Your task to perform on an android device: What is the capital of Sweden? Image 0: 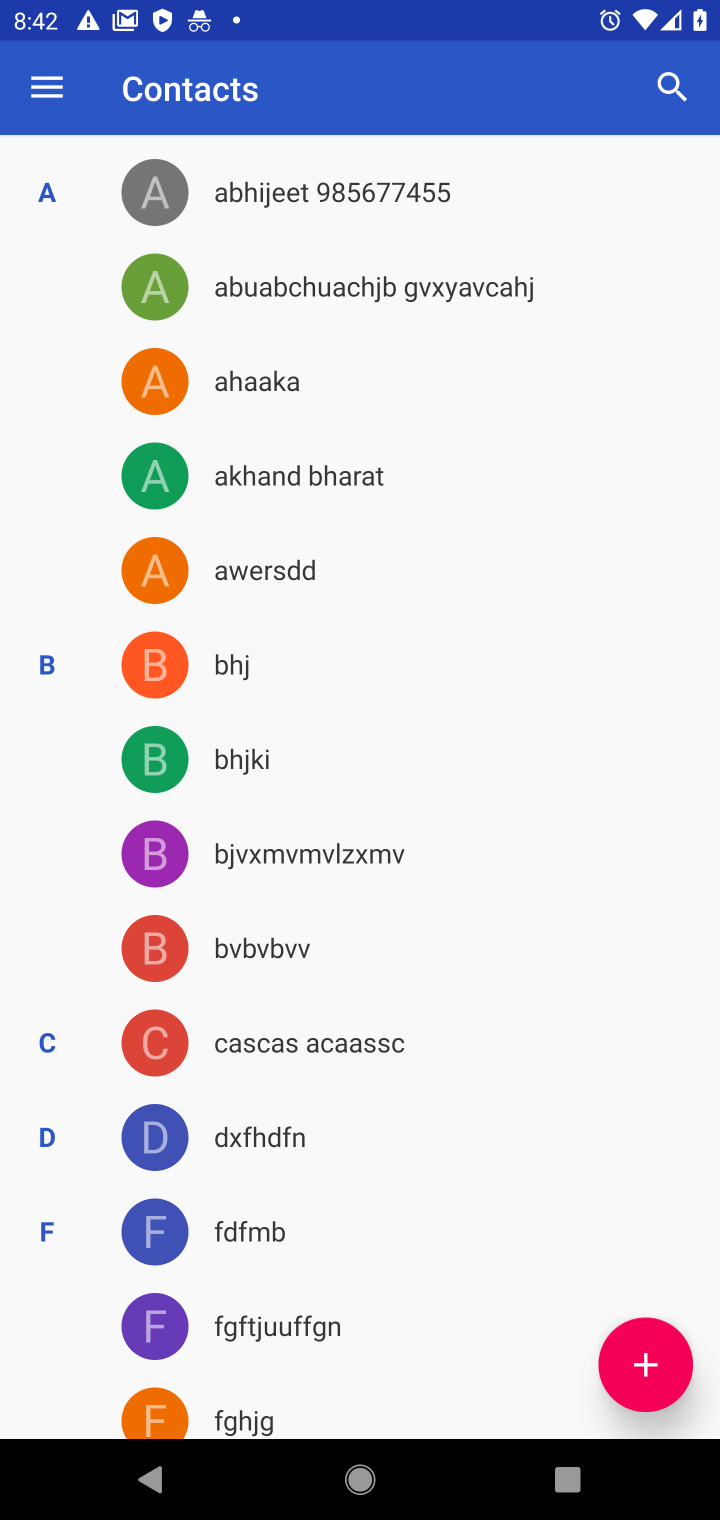
Step 0: press home button
Your task to perform on an android device: What is the capital of Sweden? Image 1: 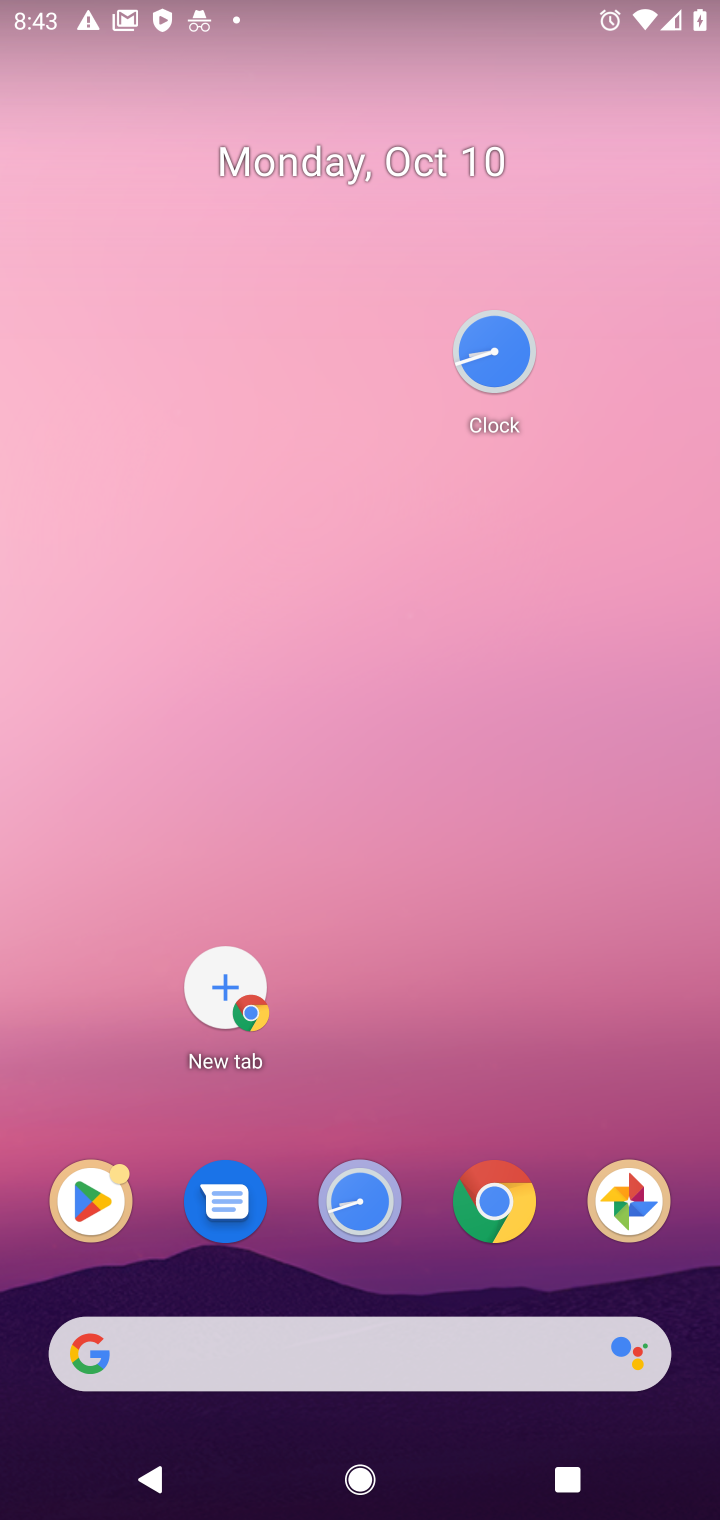
Step 1: click (499, 1223)
Your task to perform on an android device: What is the capital of Sweden? Image 2: 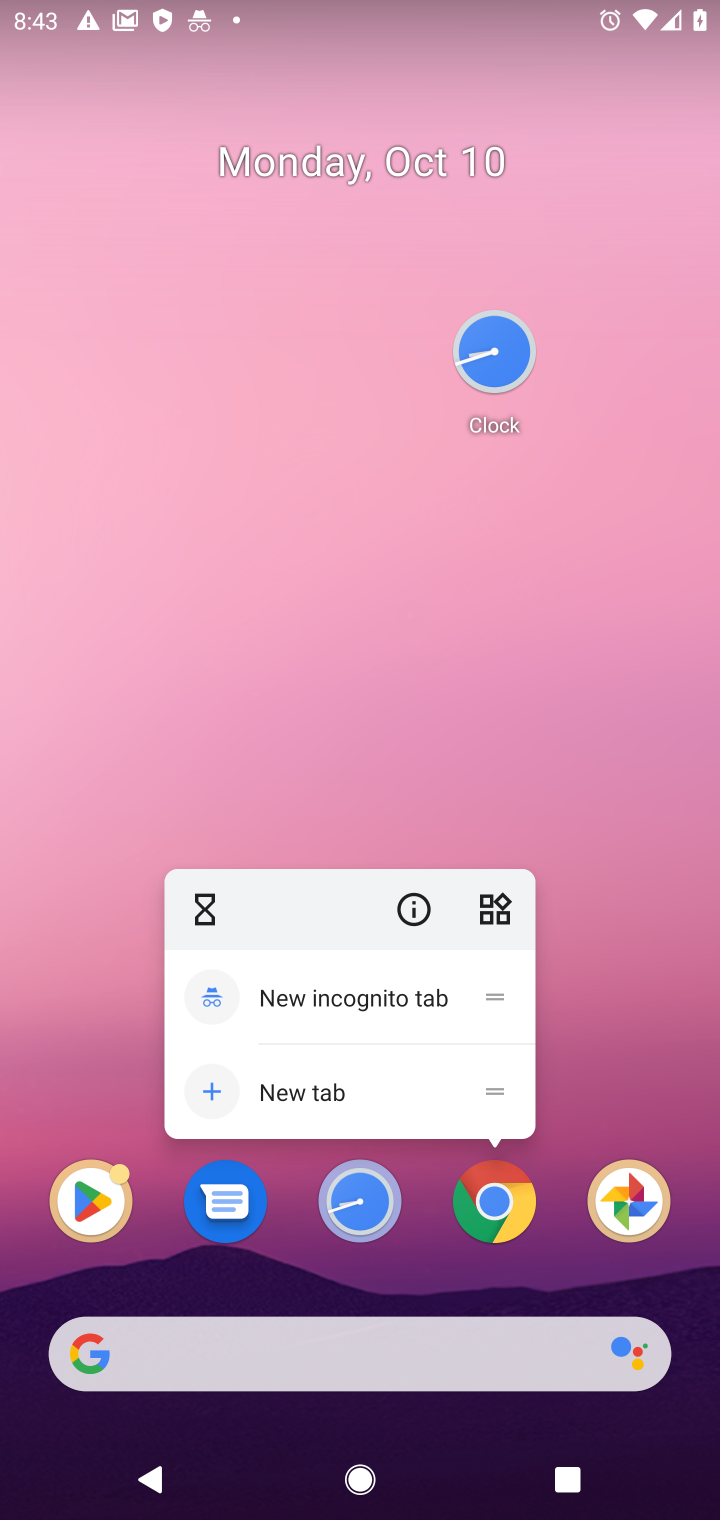
Step 2: click (501, 1198)
Your task to perform on an android device: What is the capital of Sweden? Image 3: 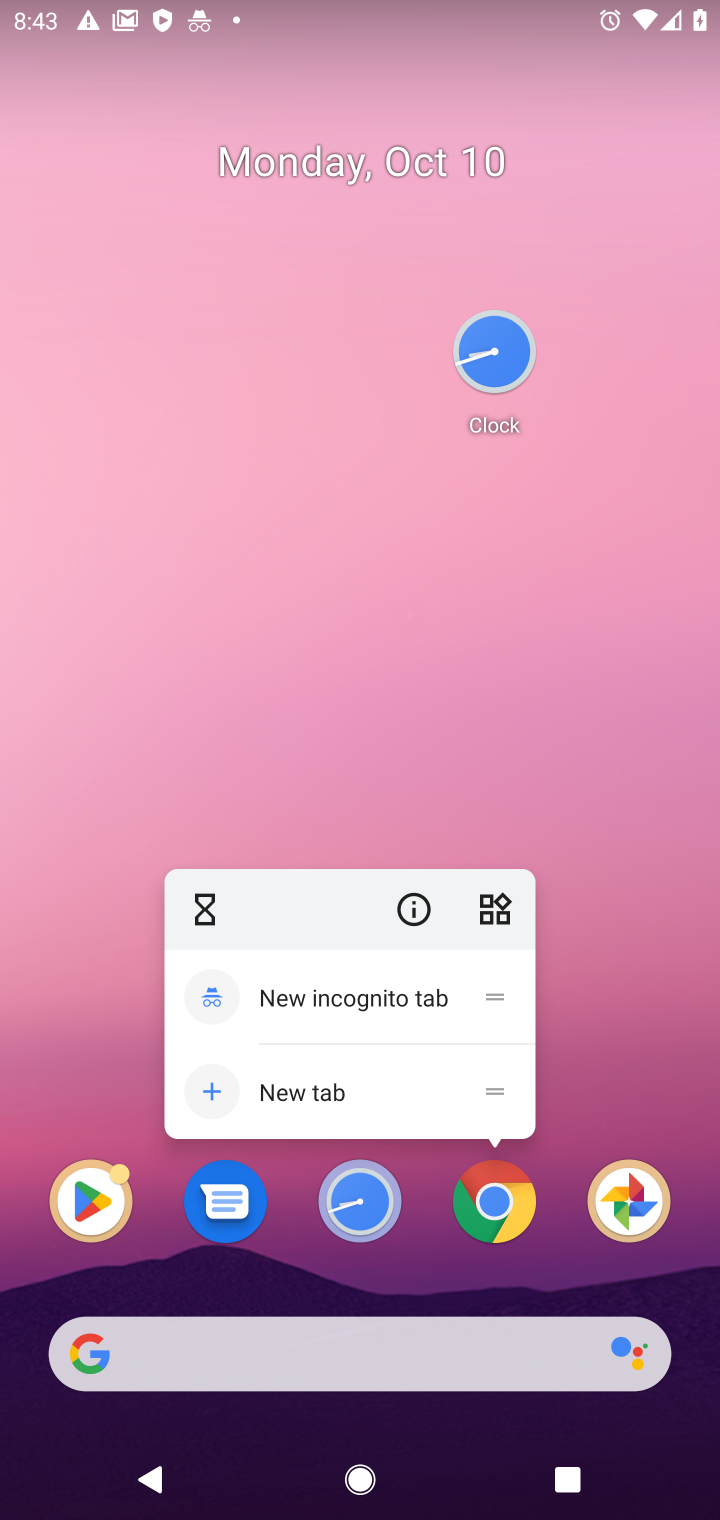
Step 3: click (491, 1198)
Your task to perform on an android device: What is the capital of Sweden? Image 4: 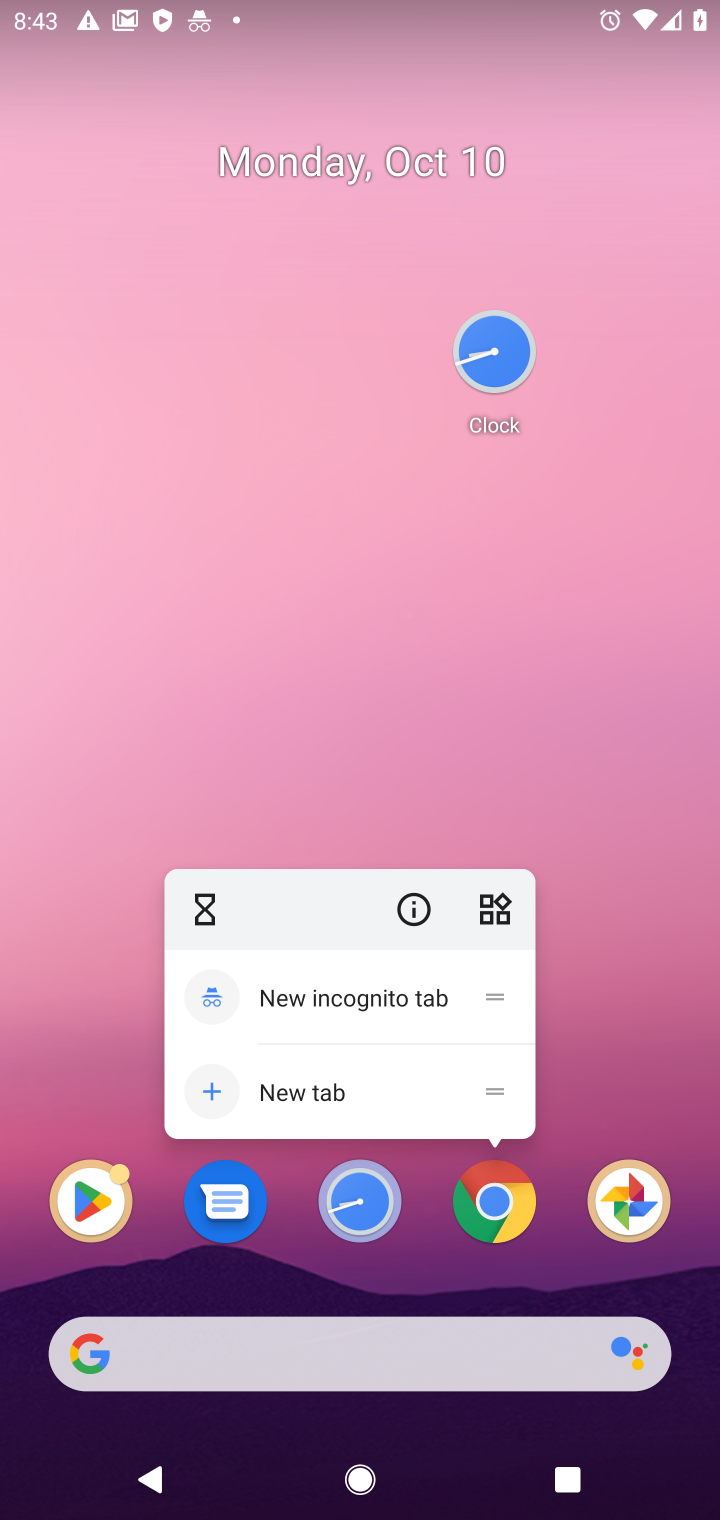
Step 4: click (373, 1107)
Your task to perform on an android device: What is the capital of Sweden? Image 5: 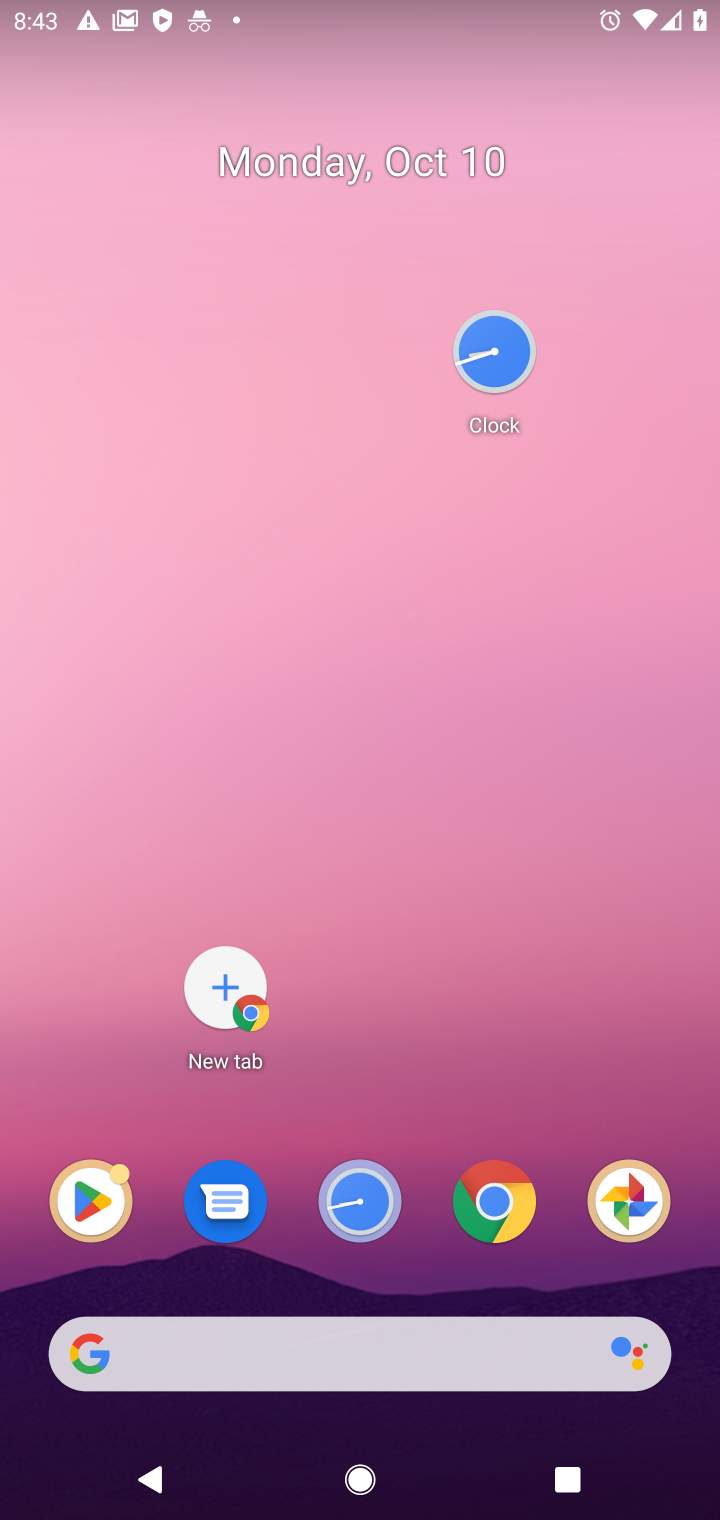
Step 5: click (499, 1214)
Your task to perform on an android device: What is the capital of Sweden? Image 6: 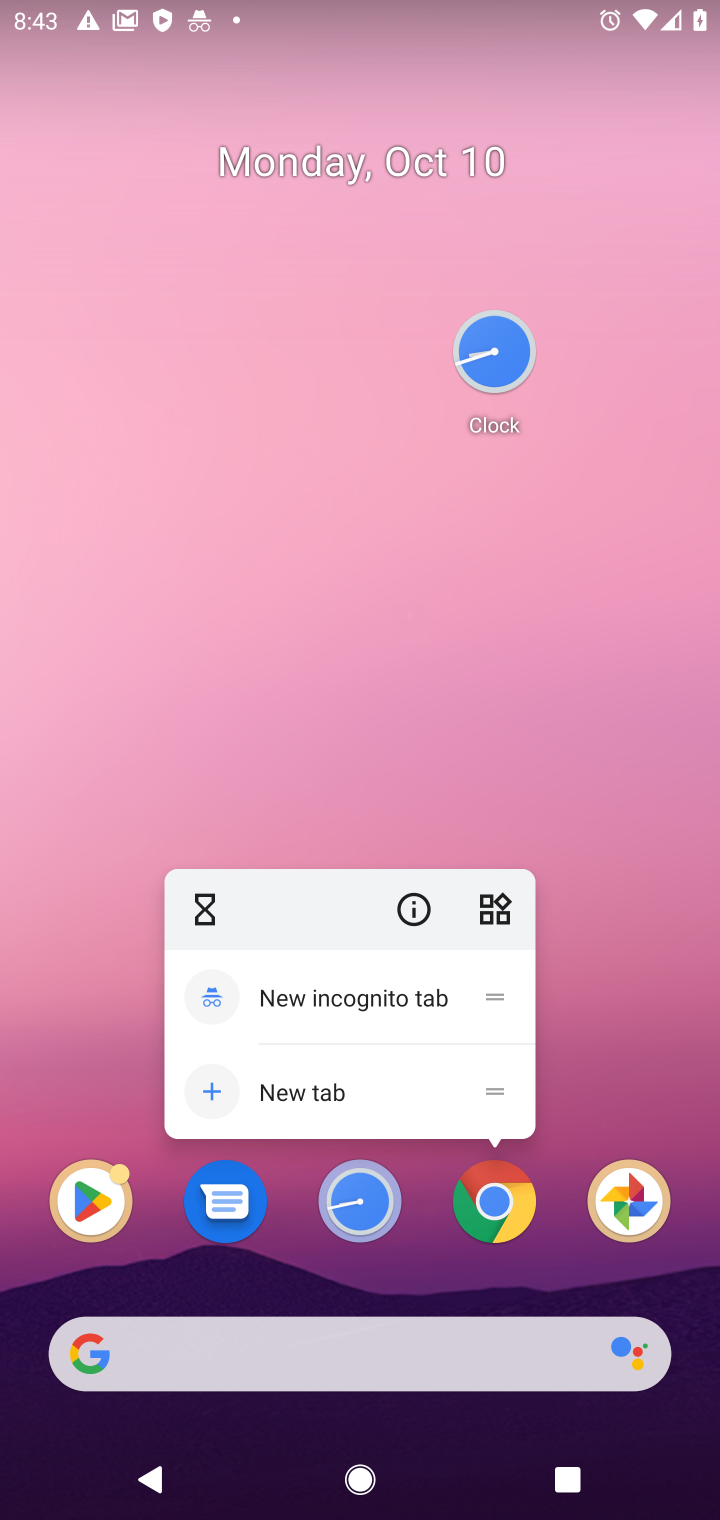
Step 6: click (487, 1193)
Your task to perform on an android device: What is the capital of Sweden? Image 7: 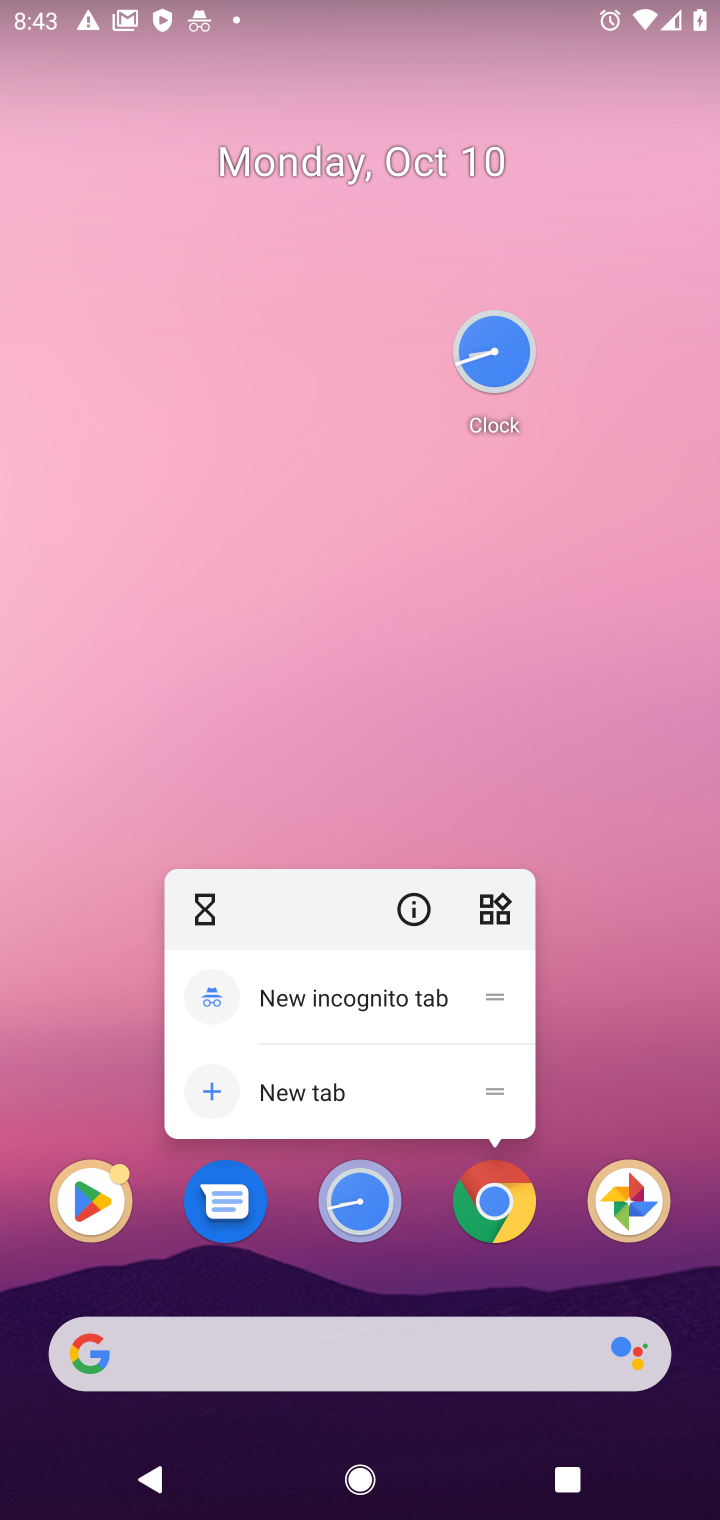
Step 7: click (322, 1097)
Your task to perform on an android device: What is the capital of Sweden? Image 8: 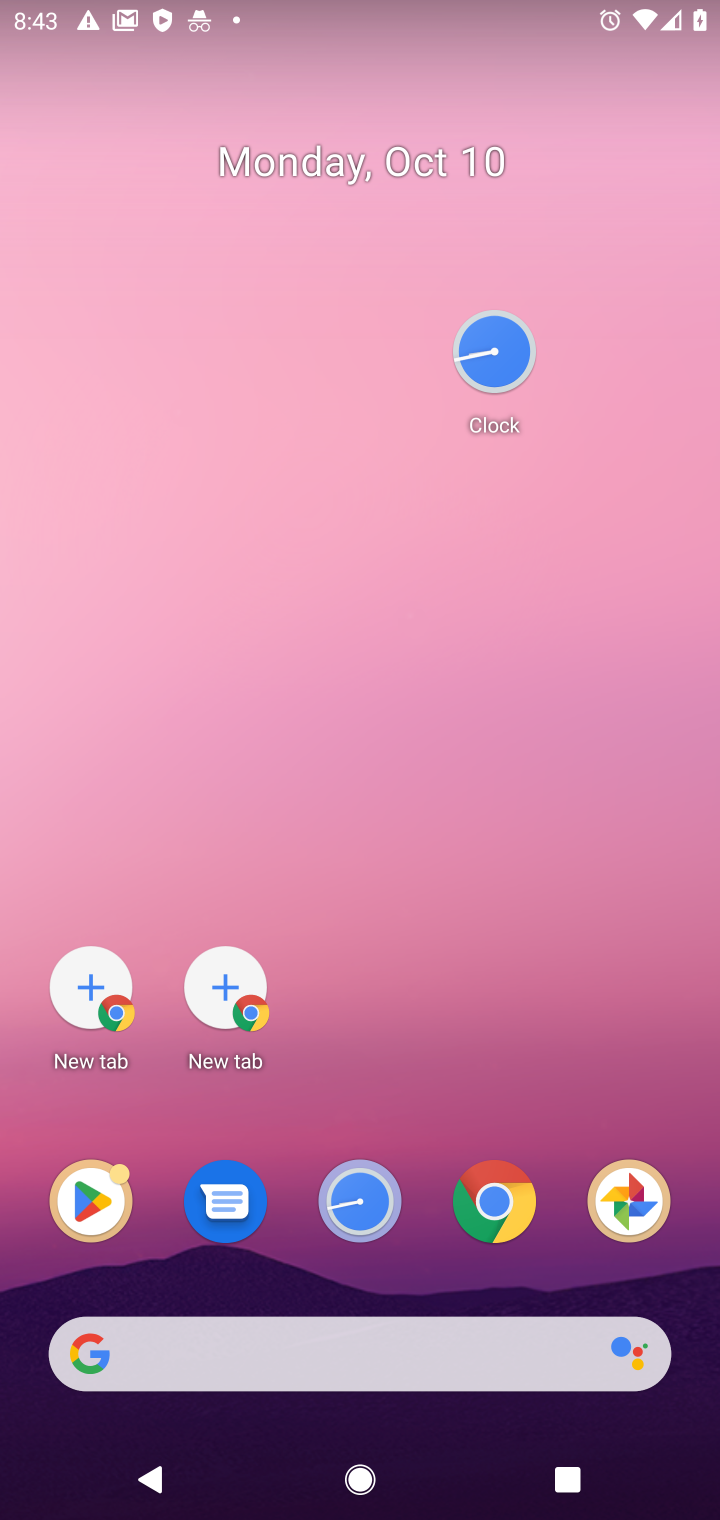
Step 8: click (127, 1005)
Your task to perform on an android device: What is the capital of Sweden? Image 9: 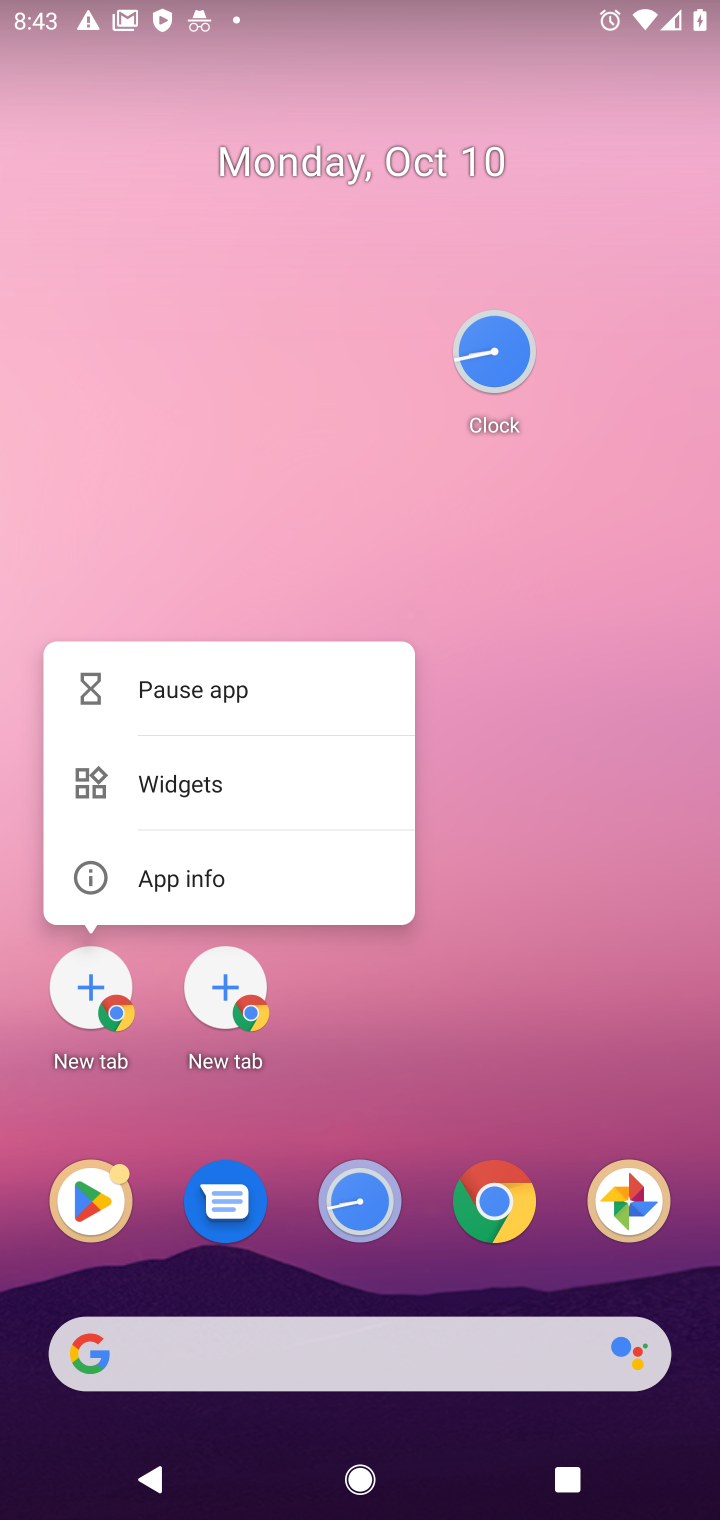
Step 9: drag from (316, 1347) to (473, 2)
Your task to perform on an android device: What is the capital of Sweden? Image 10: 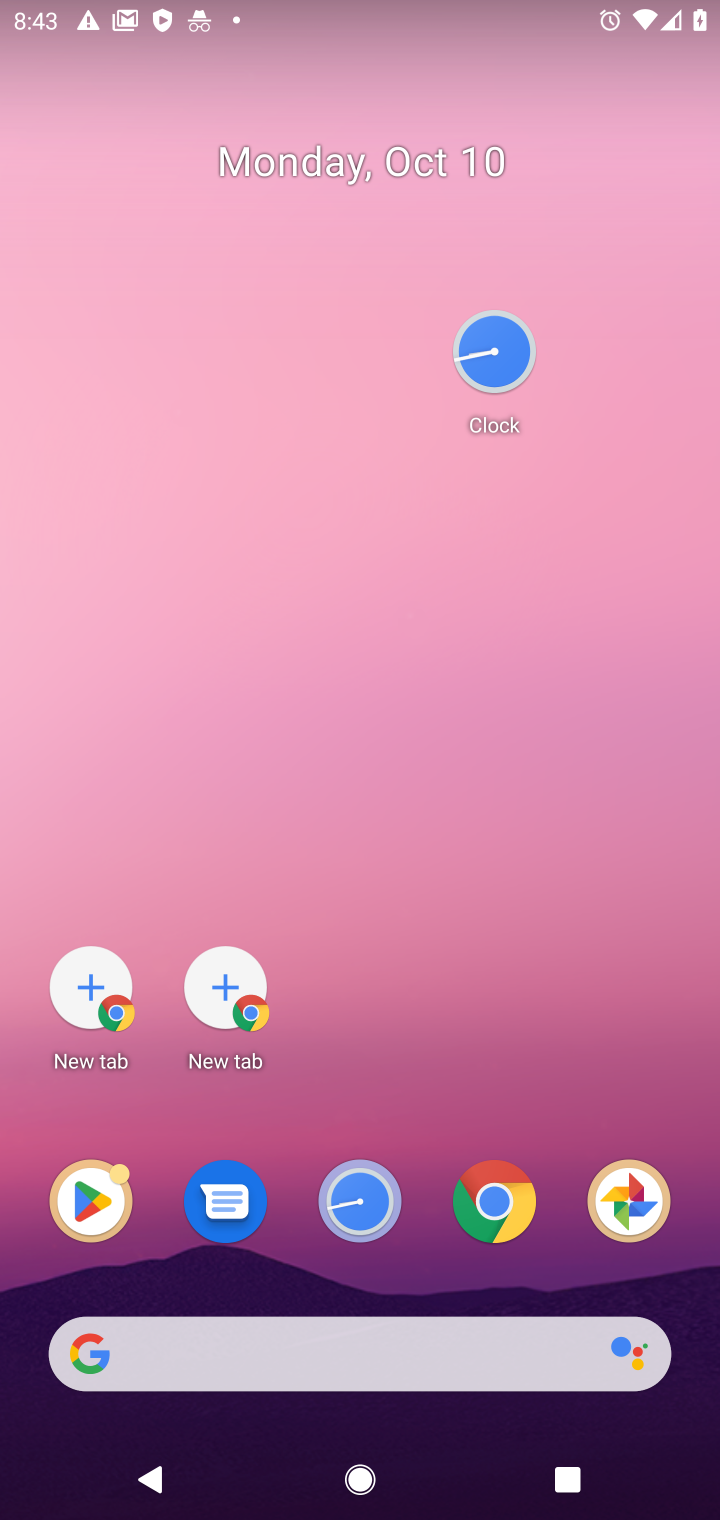
Step 10: drag from (380, 226) to (388, 60)
Your task to perform on an android device: What is the capital of Sweden? Image 11: 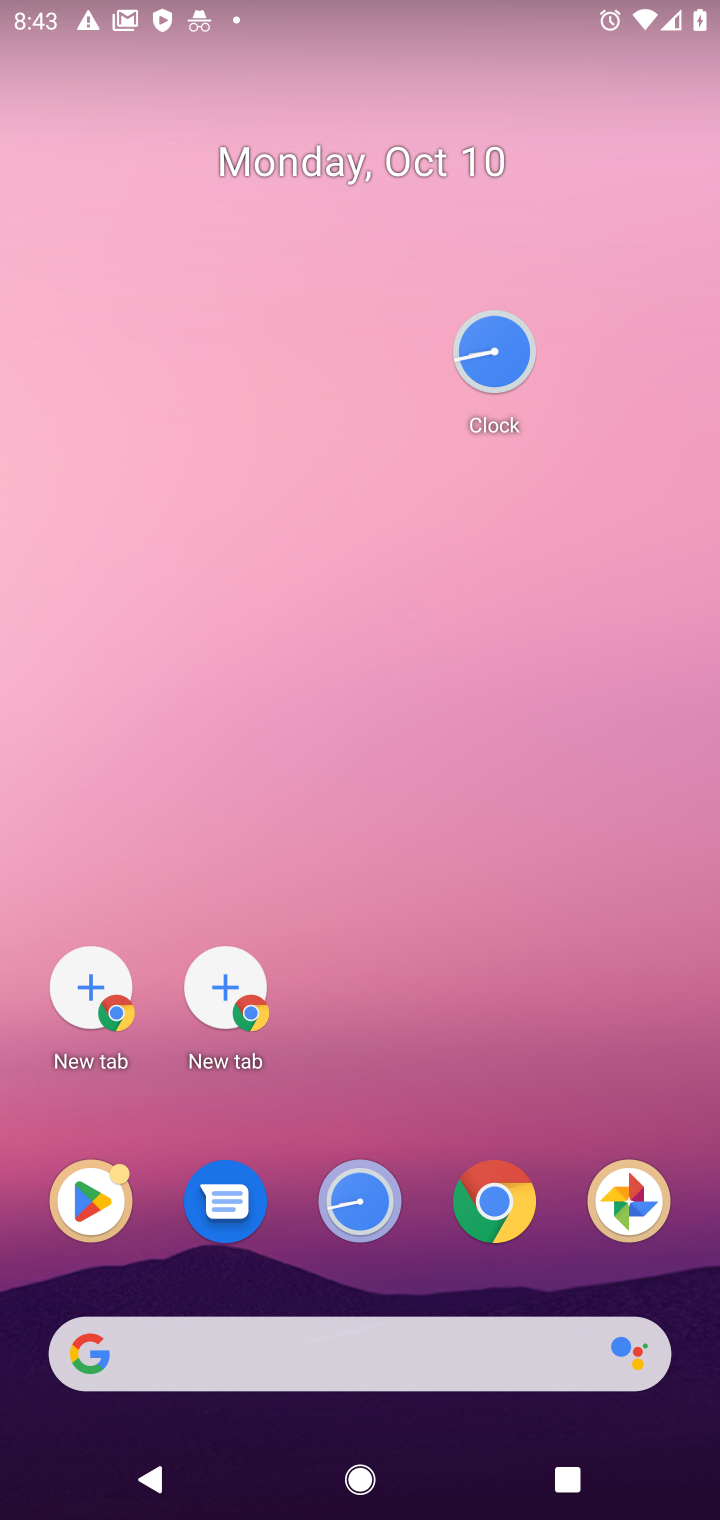
Step 11: drag from (286, 1271) to (378, 79)
Your task to perform on an android device: What is the capital of Sweden? Image 12: 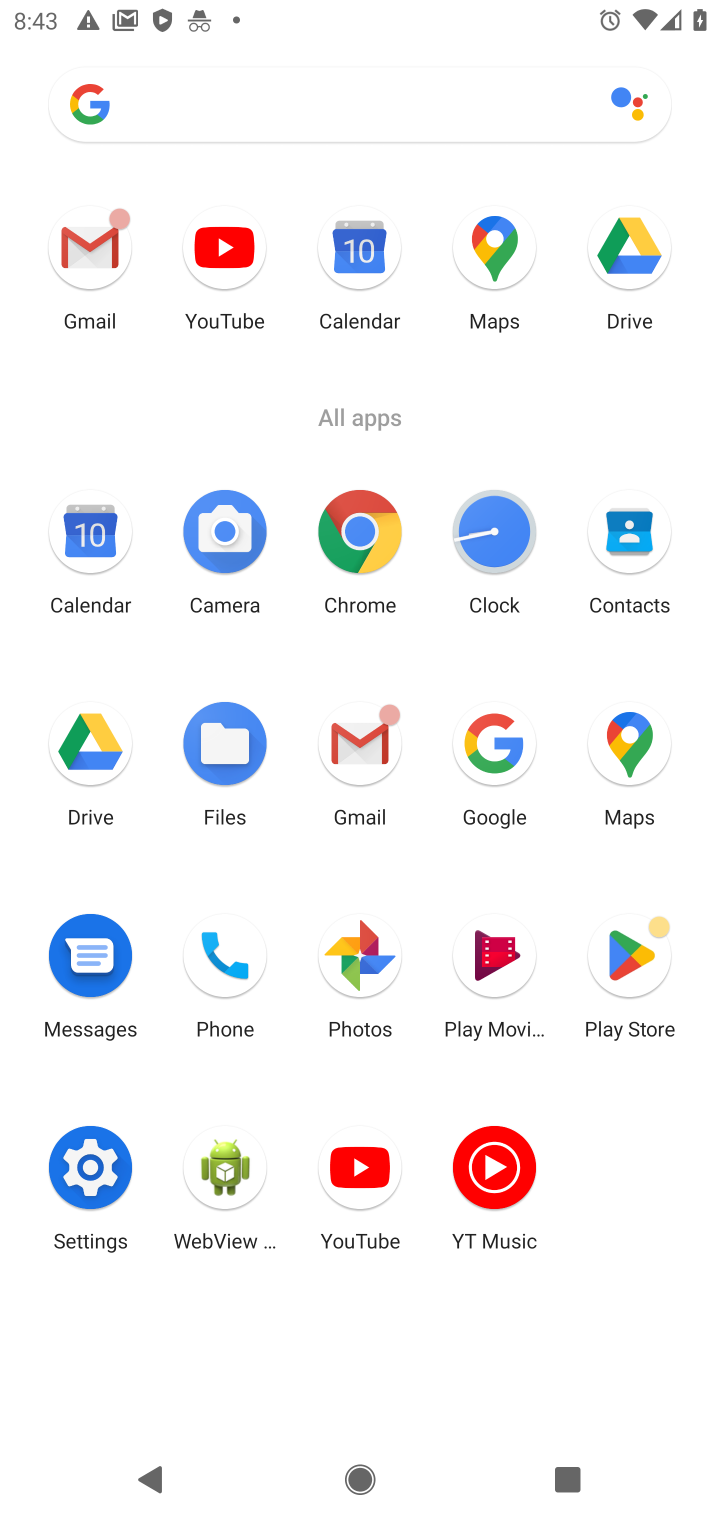
Step 12: click (351, 543)
Your task to perform on an android device: What is the capital of Sweden? Image 13: 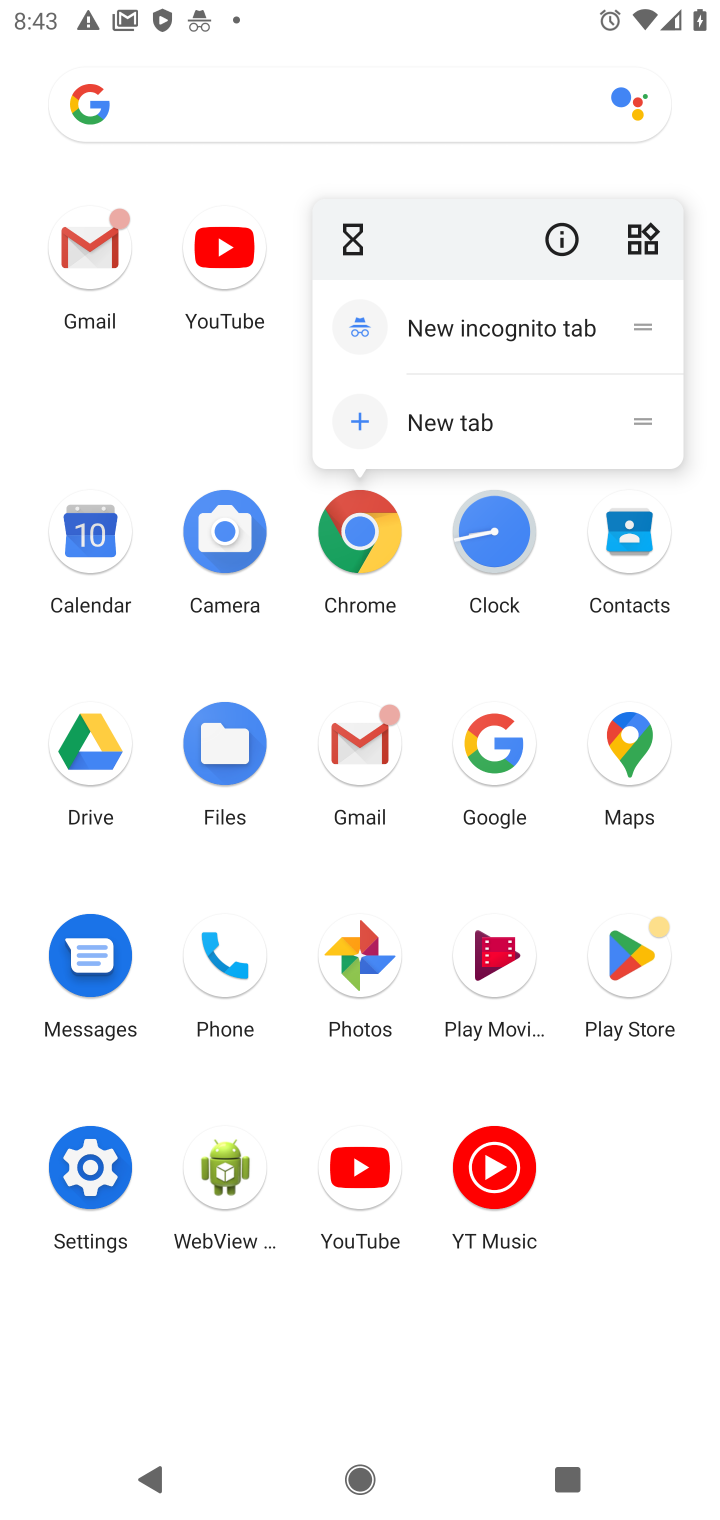
Step 13: click (383, 538)
Your task to perform on an android device: What is the capital of Sweden? Image 14: 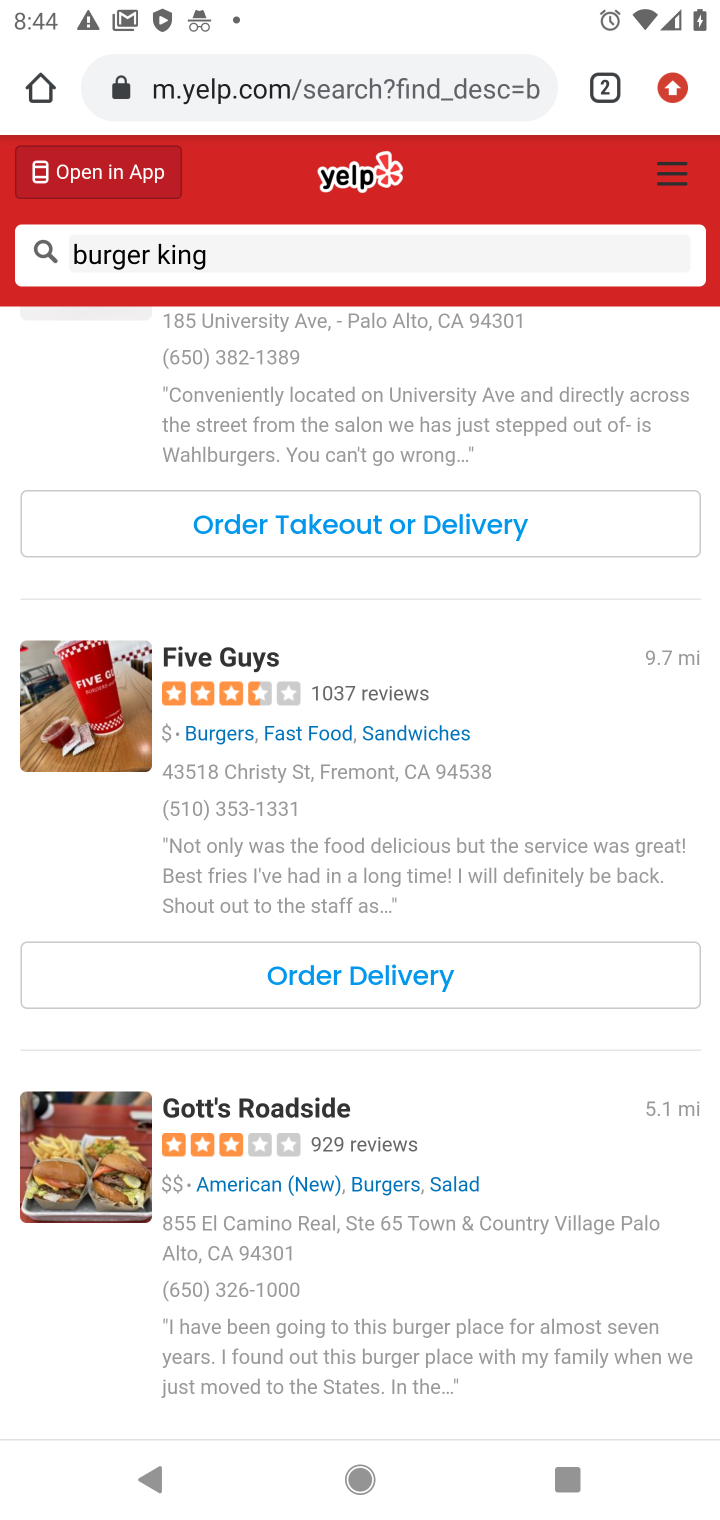
Step 14: click (273, 76)
Your task to perform on an android device: What is the capital of Sweden? Image 15: 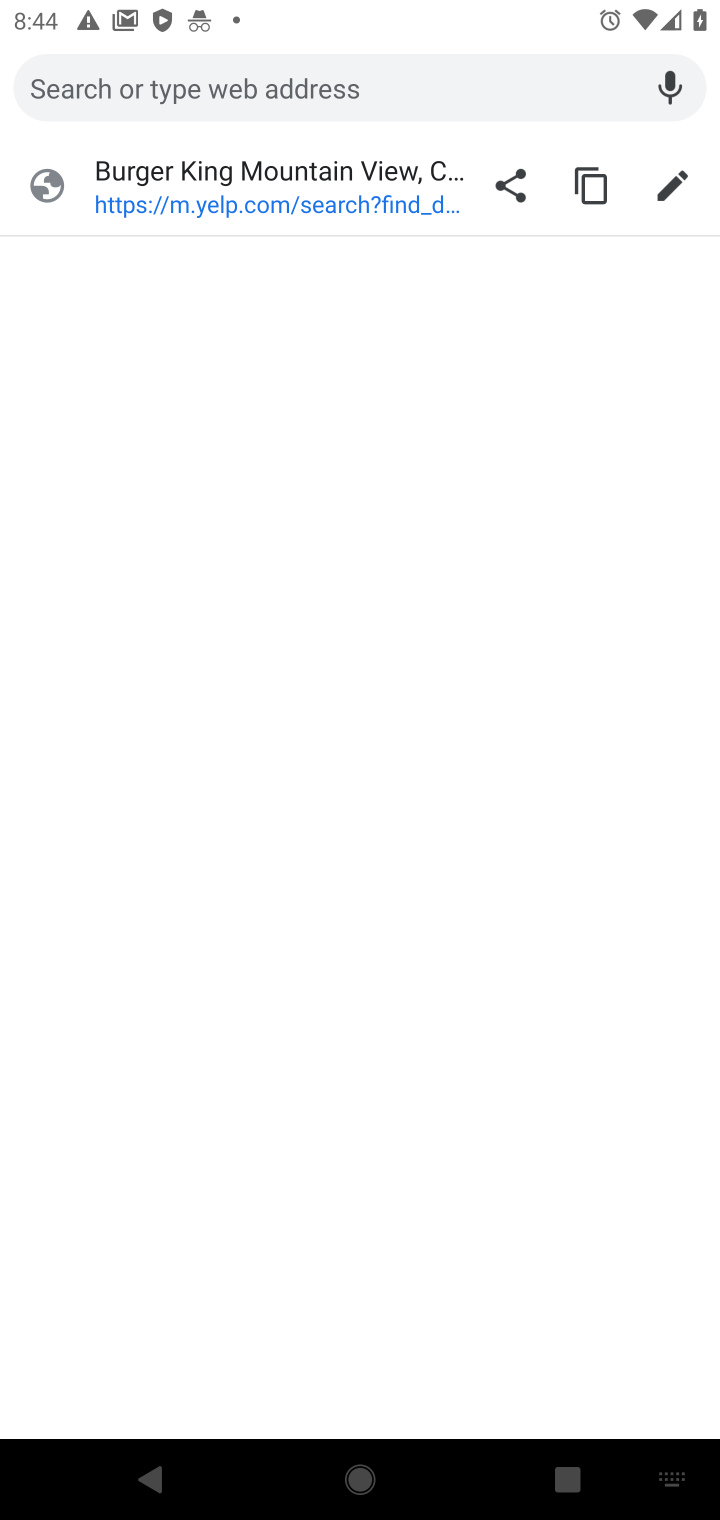
Step 15: type "What is the capital of Sweden?"
Your task to perform on an android device: What is the capital of Sweden? Image 16: 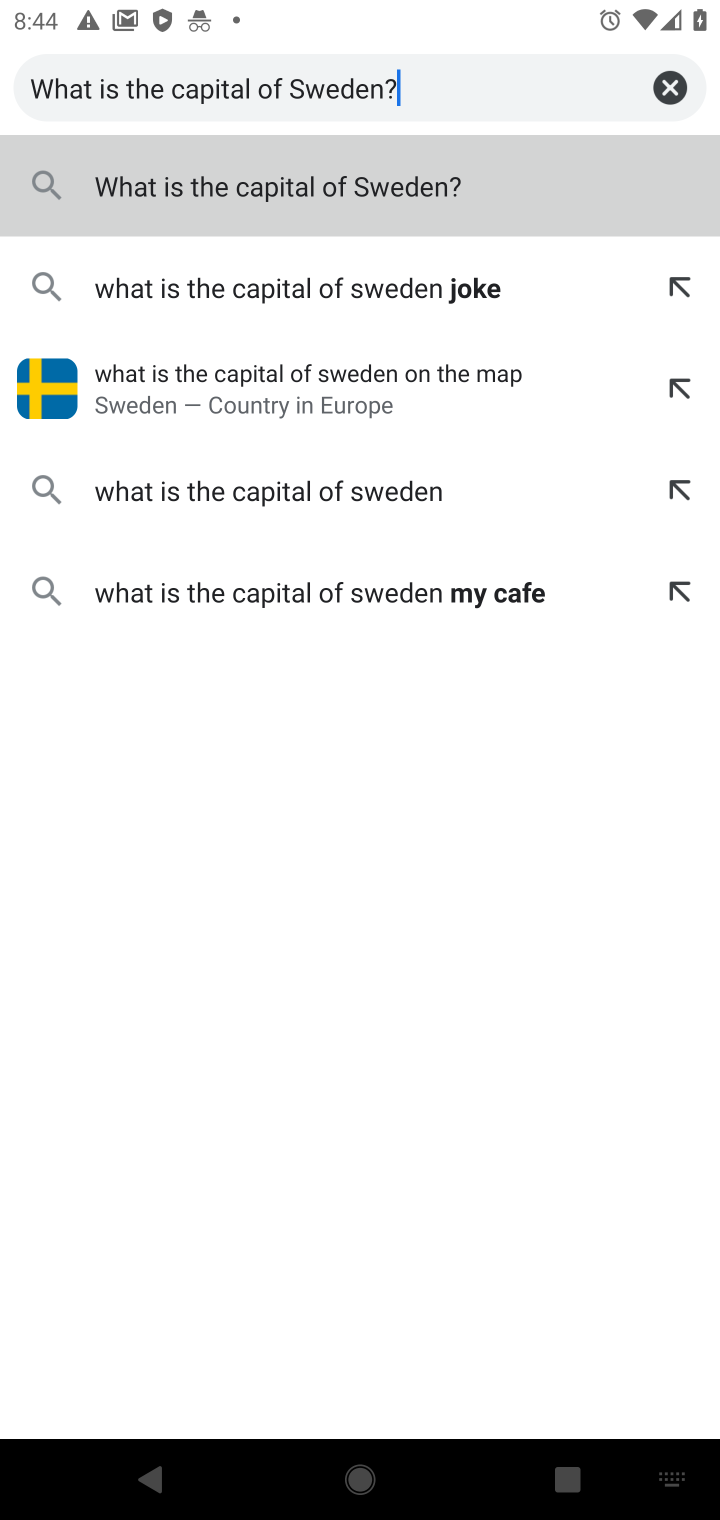
Step 16: type ""
Your task to perform on an android device: What is the capital of Sweden? Image 17: 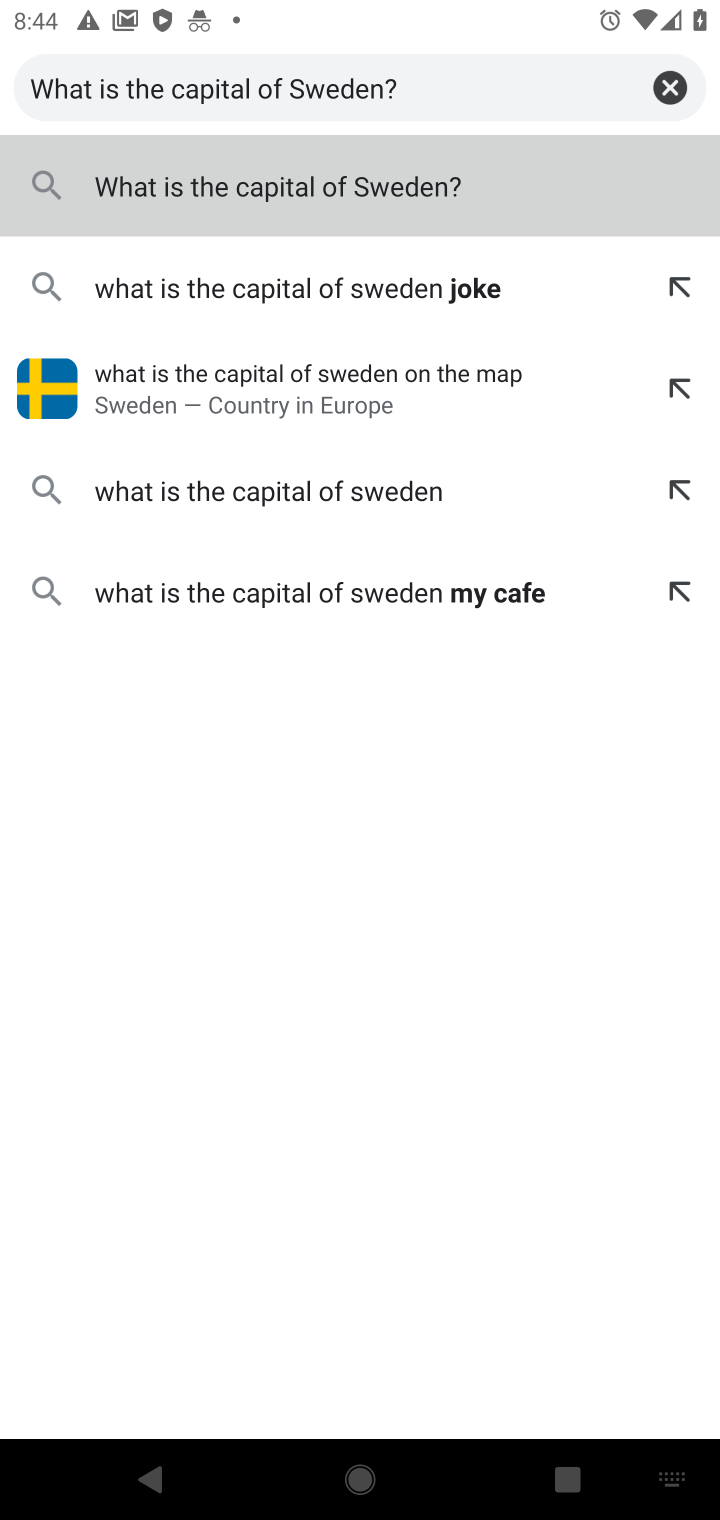
Step 17: click (320, 170)
Your task to perform on an android device: What is the capital of Sweden? Image 18: 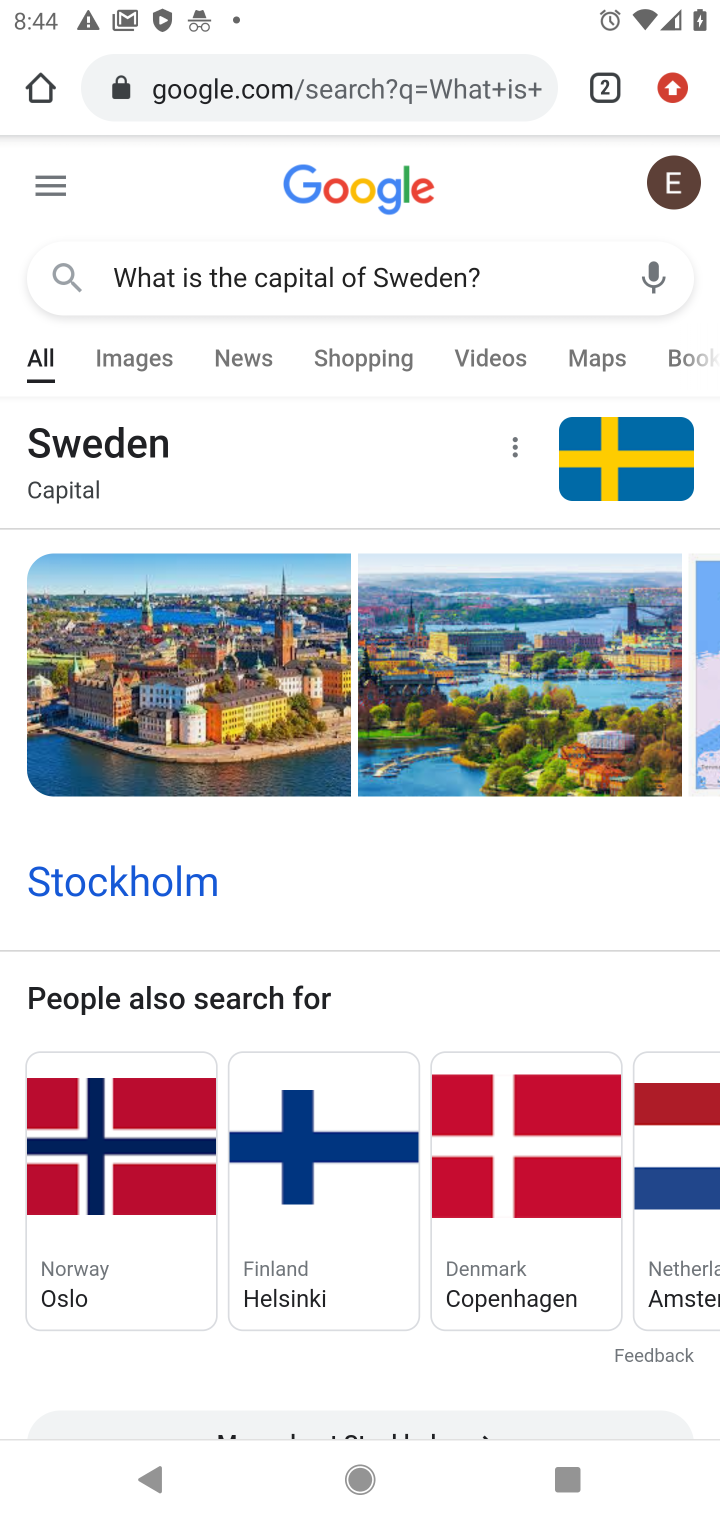
Step 18: drag from (186, 1185) to (248, 562)
Your task to perform on an android device: What is the capital of Sweden? Image 19: 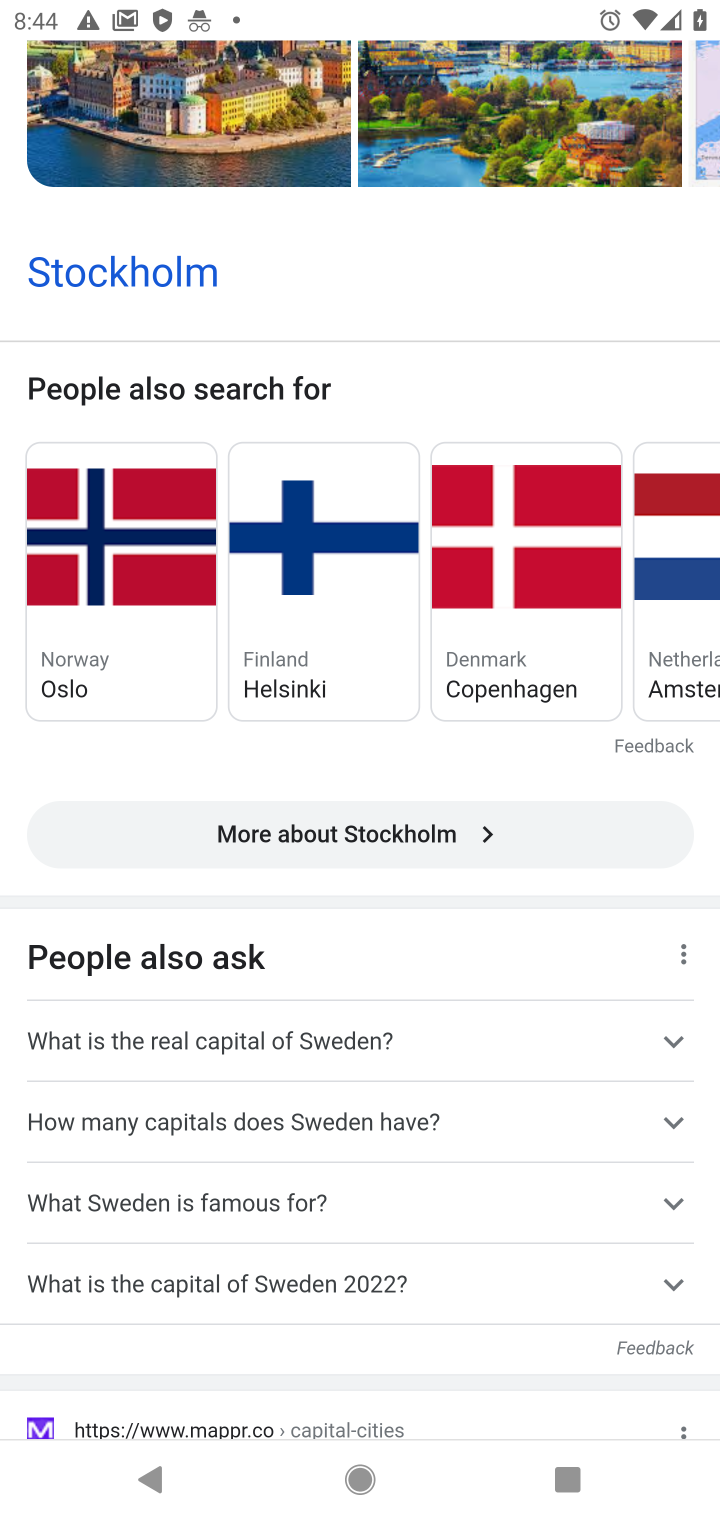
Step 19: drag from (303, 689) to (341, 323)
Your task to perform on an android device: What is the capital of Sweden? Image 20: 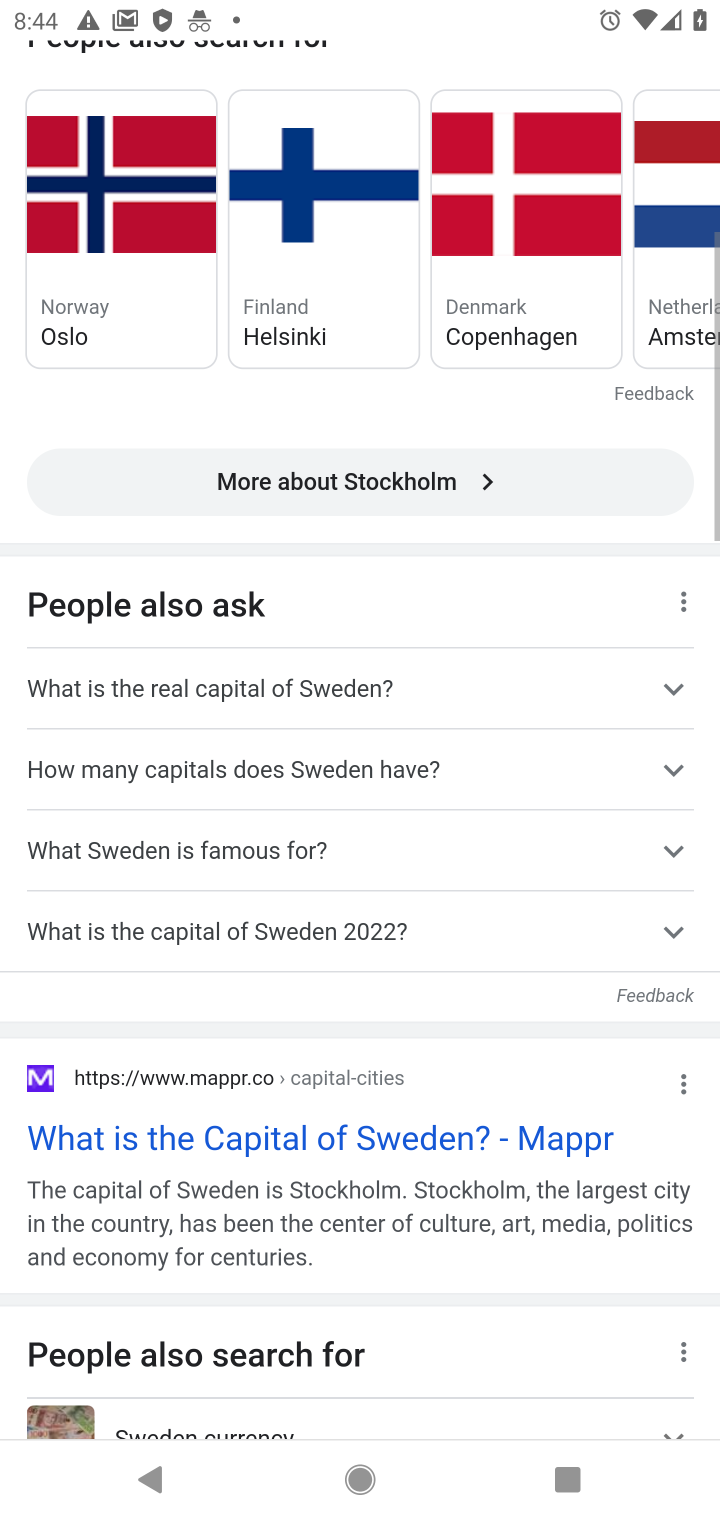
Step 20: drag from (333, 641) to (383, 371)
Your task to perform on an android device: What is the capital of Sweden? Image 21: 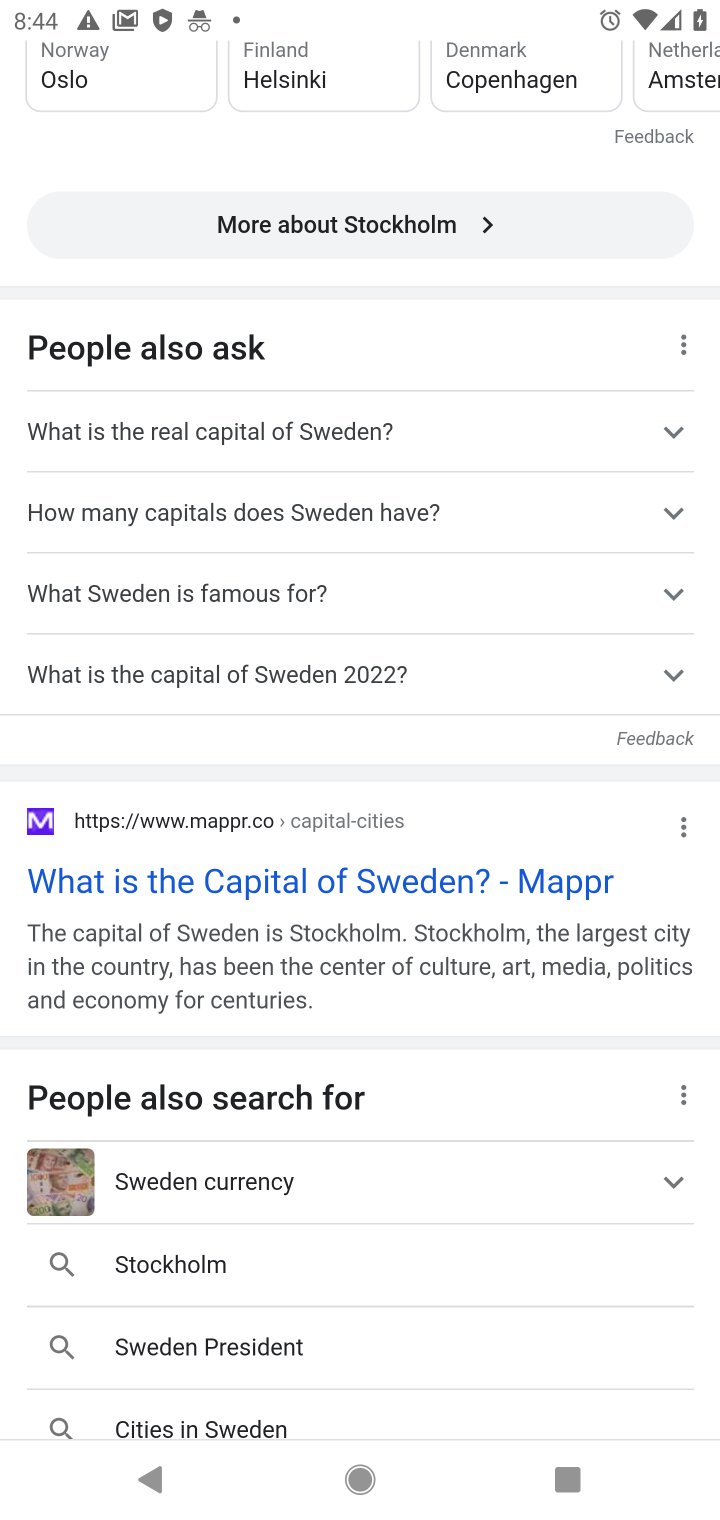
Step 21: click (220, 899)
Your task to perform on an android device: What is the capital of Sweden? Image 22: 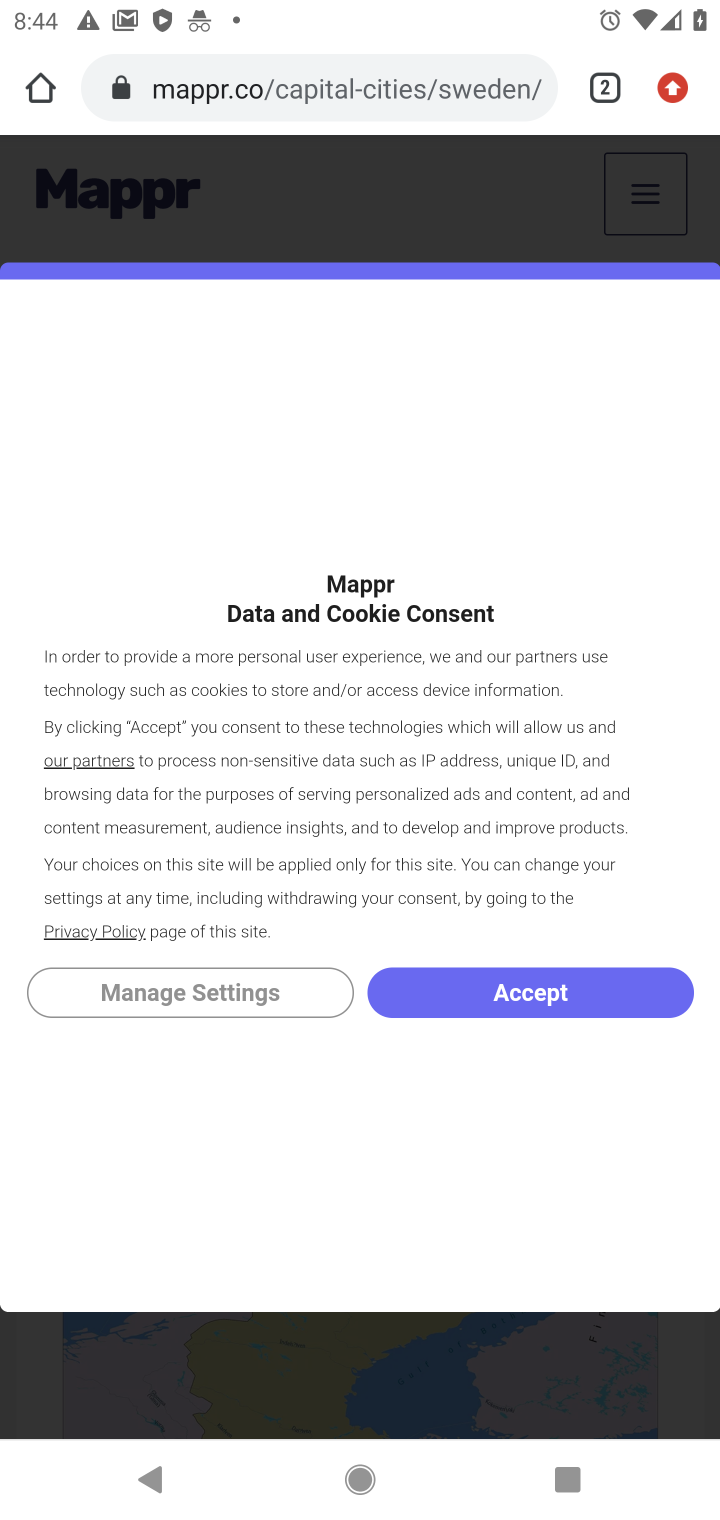
Step 22: click (498, 1000)
Your task to perform on an android device: What is the capital of Sweden? Image 23: 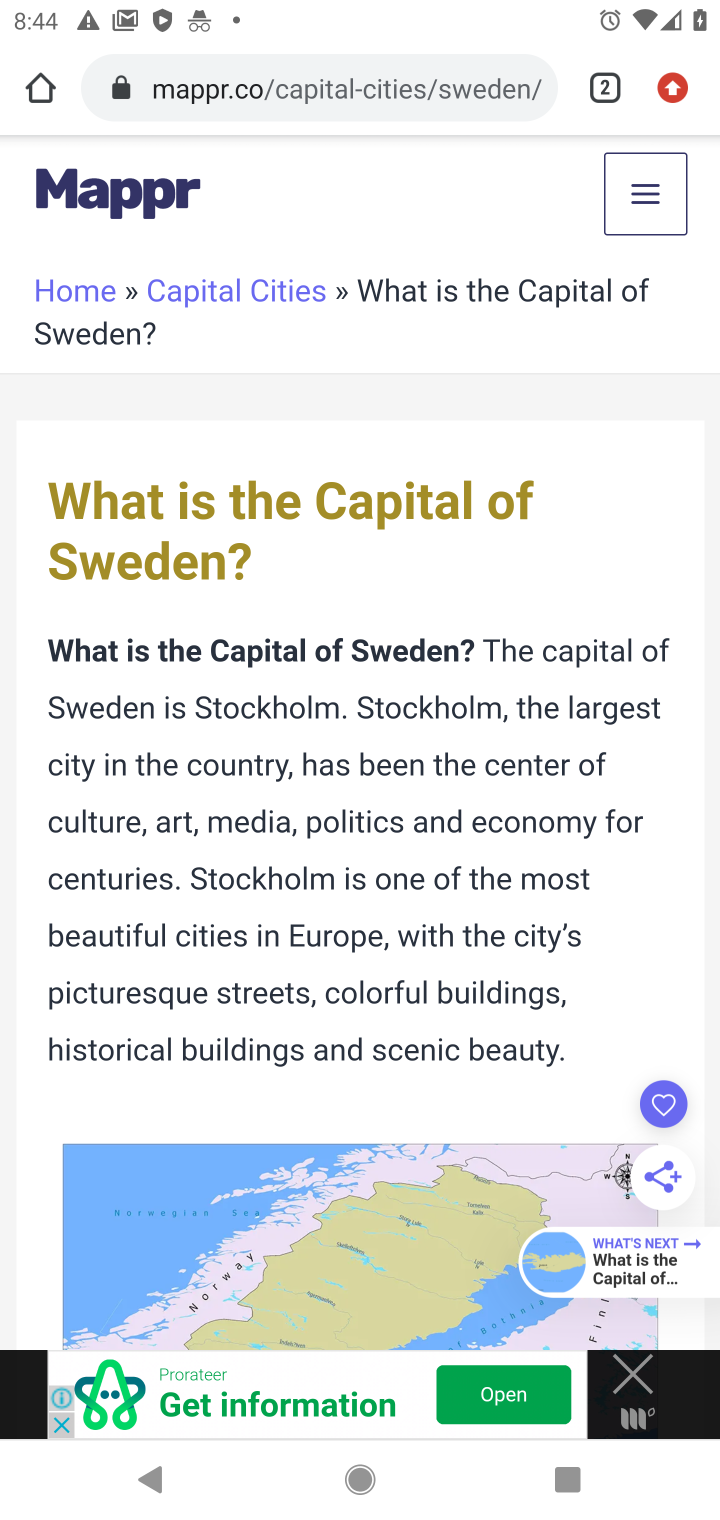
Step 23: drag from (474, 1204) to (544, 372)
Your task to perform on an android device: What is the capital of Sweden? Image 24: 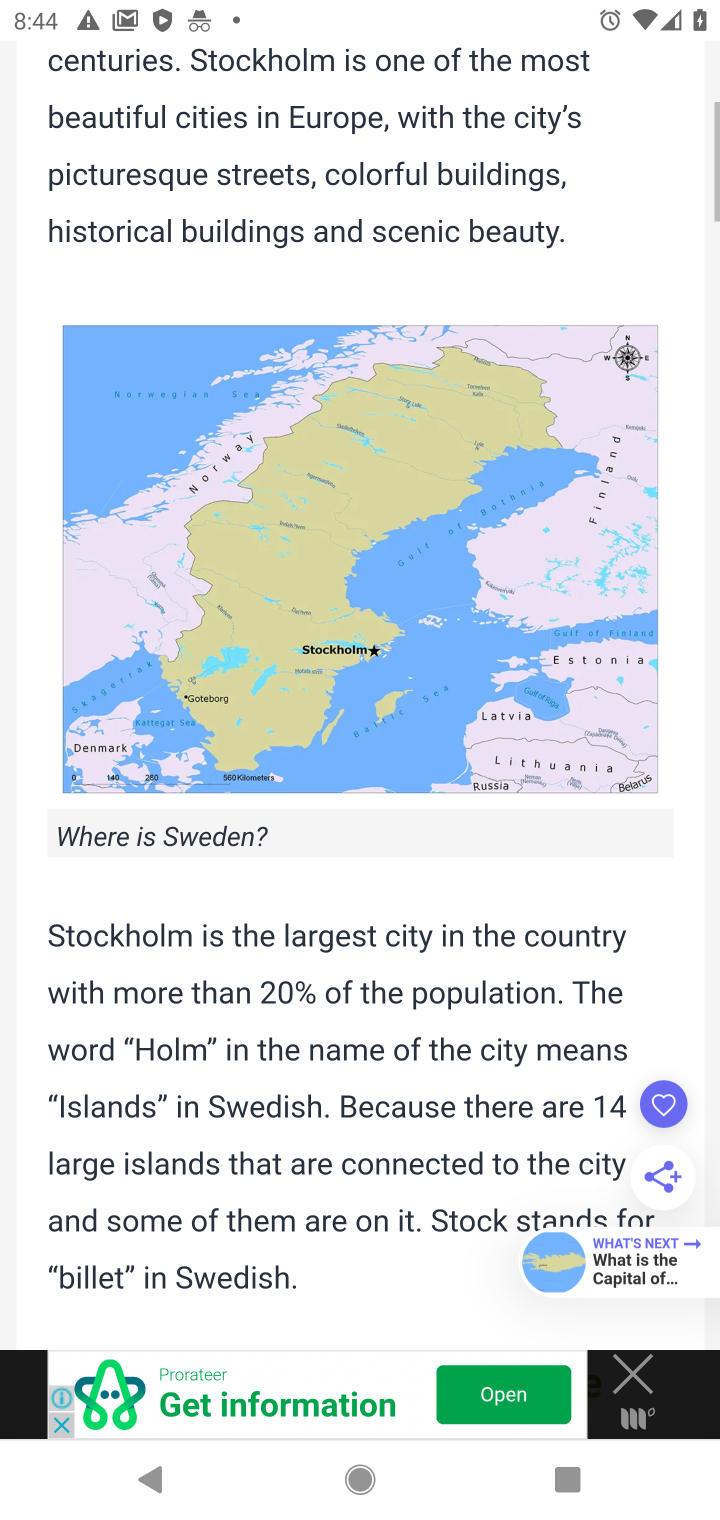
Step 24: drag from (411, 795) to (412, 265)
Your task to perform on an android device: What is the capital of Sweden? Image 25: 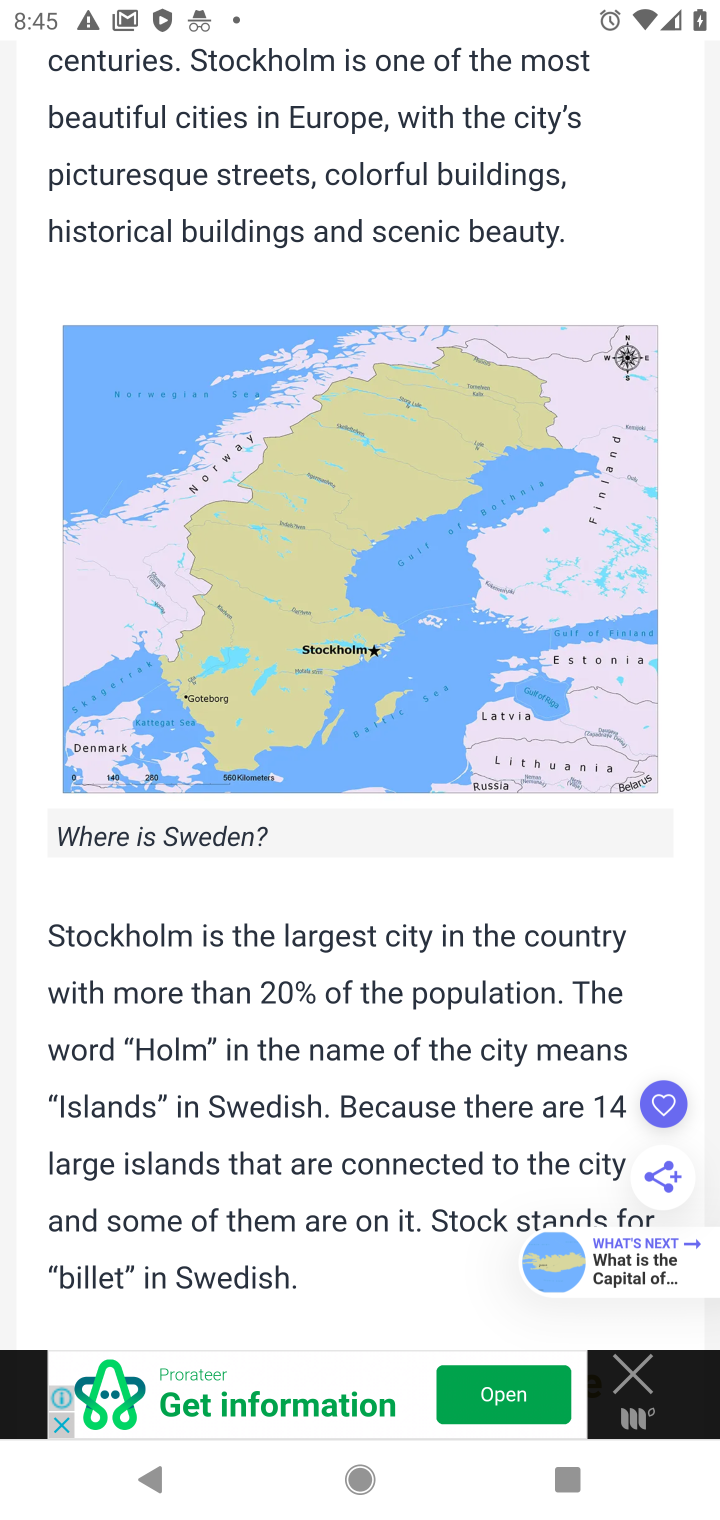
Step 25: drag from (467, 631) to (516, 386)
Your task to perform on an android device: What is the capital of Sweden? Image 26: 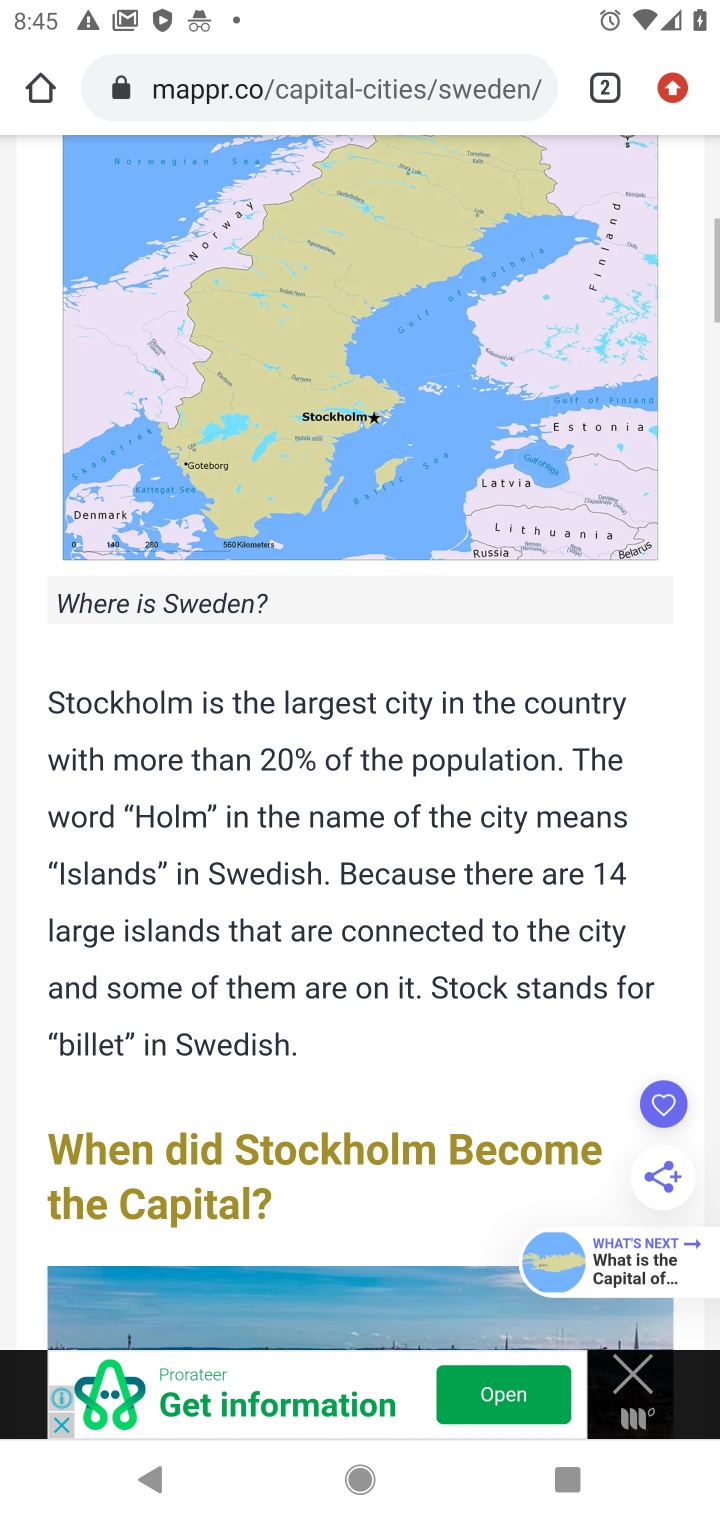
Step 26: drag from (468, 692) to (555, 412)
Your task to perform on an android device: What is the capital of Sweden? Image 27: 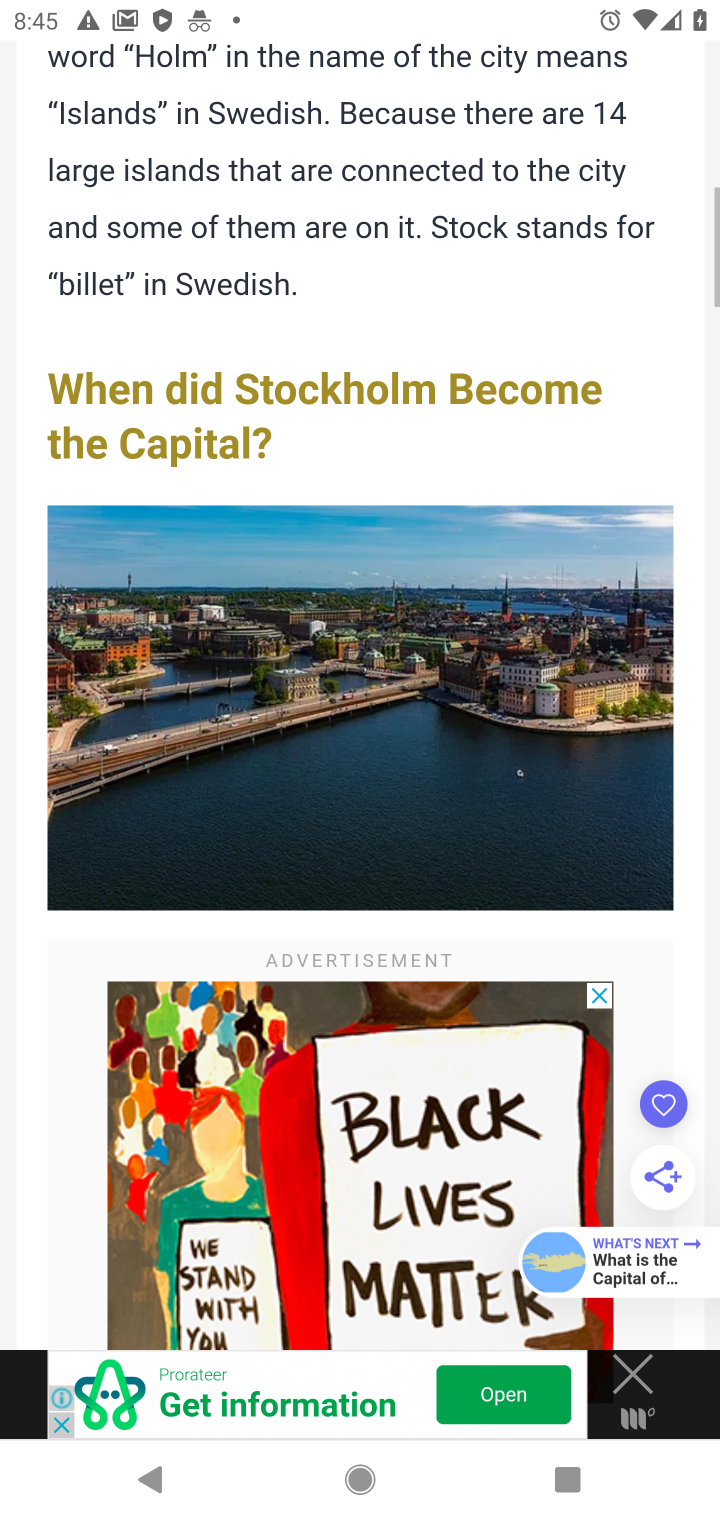
Step 27: drag from (484, 417) to (484, 324)
Your task to perform on an android device: What is the capital of Sweden? Image 28: 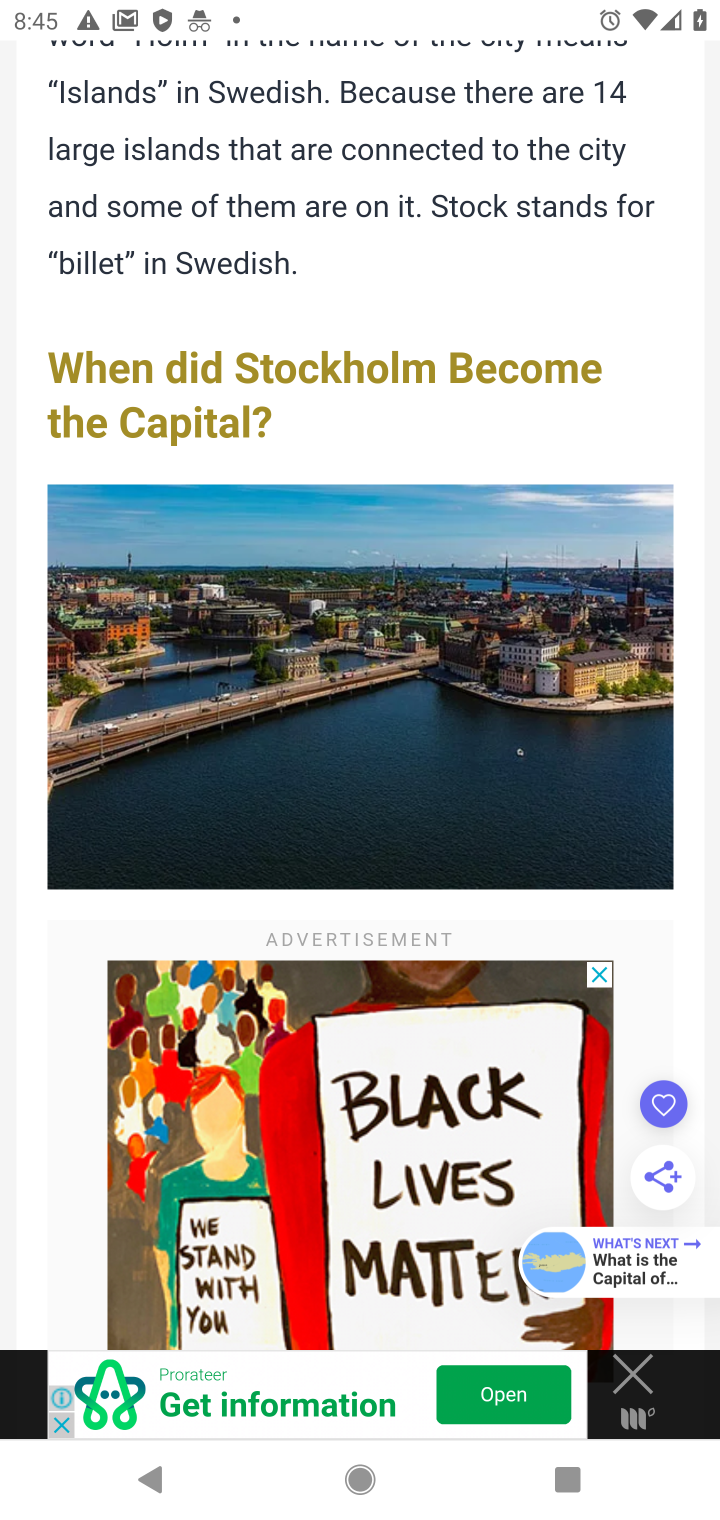
Step 28: drag from (522, 407) to (358, 263)
Your task to perform on an android device: What is the capital of Sweden? Image 29: 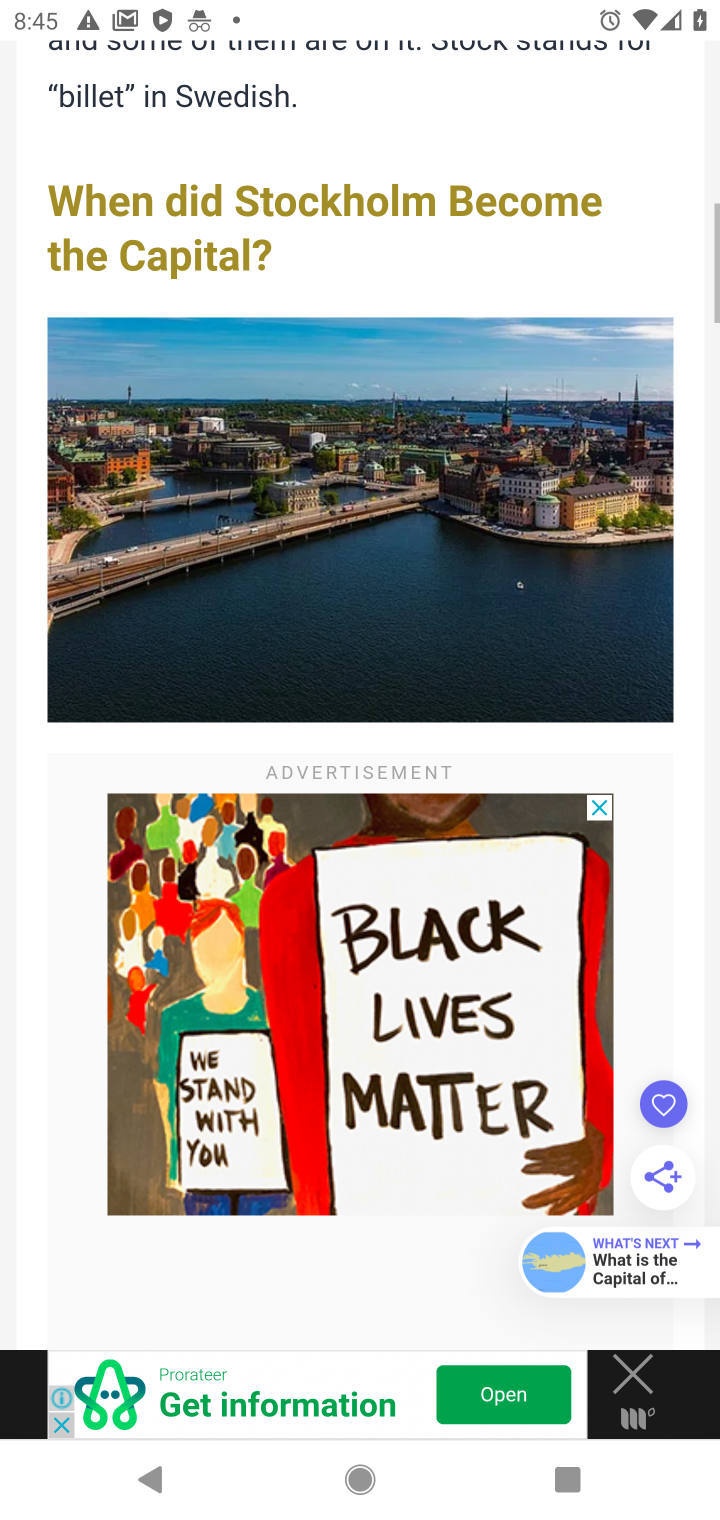
Step 29: drag from (365, 1144) to (375, 57)
Your task to perform on an android device: What is the capital of Sweden? Image 30: 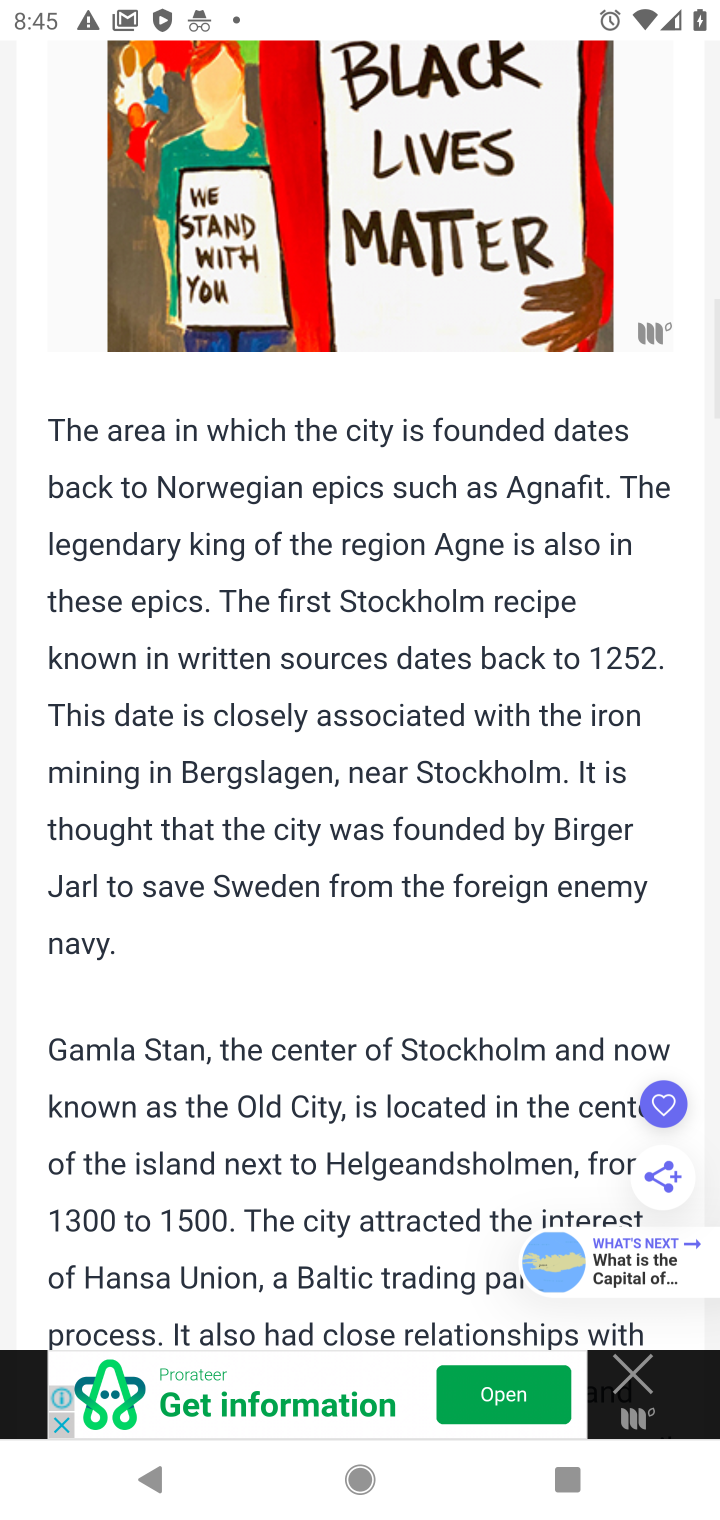
Step 30: drag from (509, 556) to (518, 445)
Your task to perform on an android device: What is the capital of Sweden? Image 31: 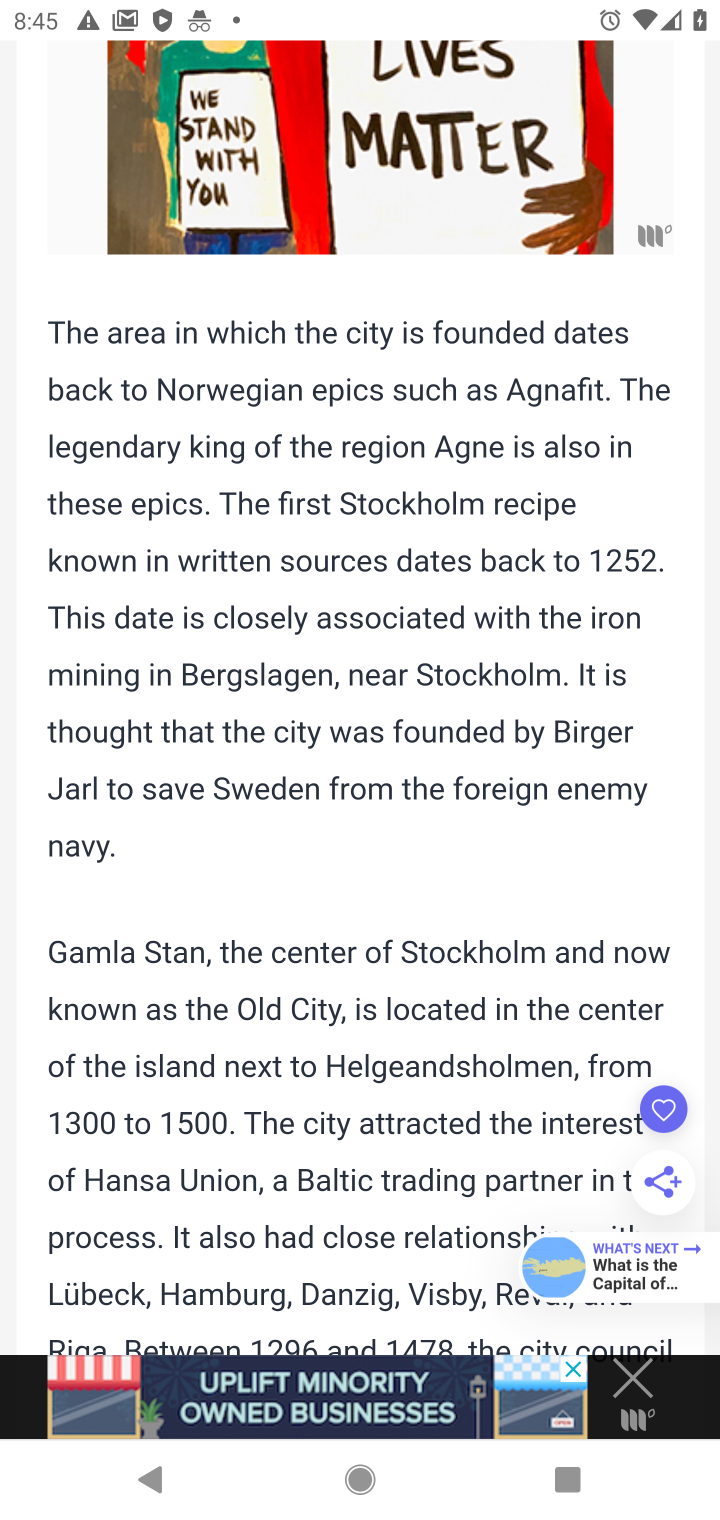
Step 31: drag from (480, 879) to (477, 422)
Your task to perform on an android device: What is the capital of Sweden? Image 32: 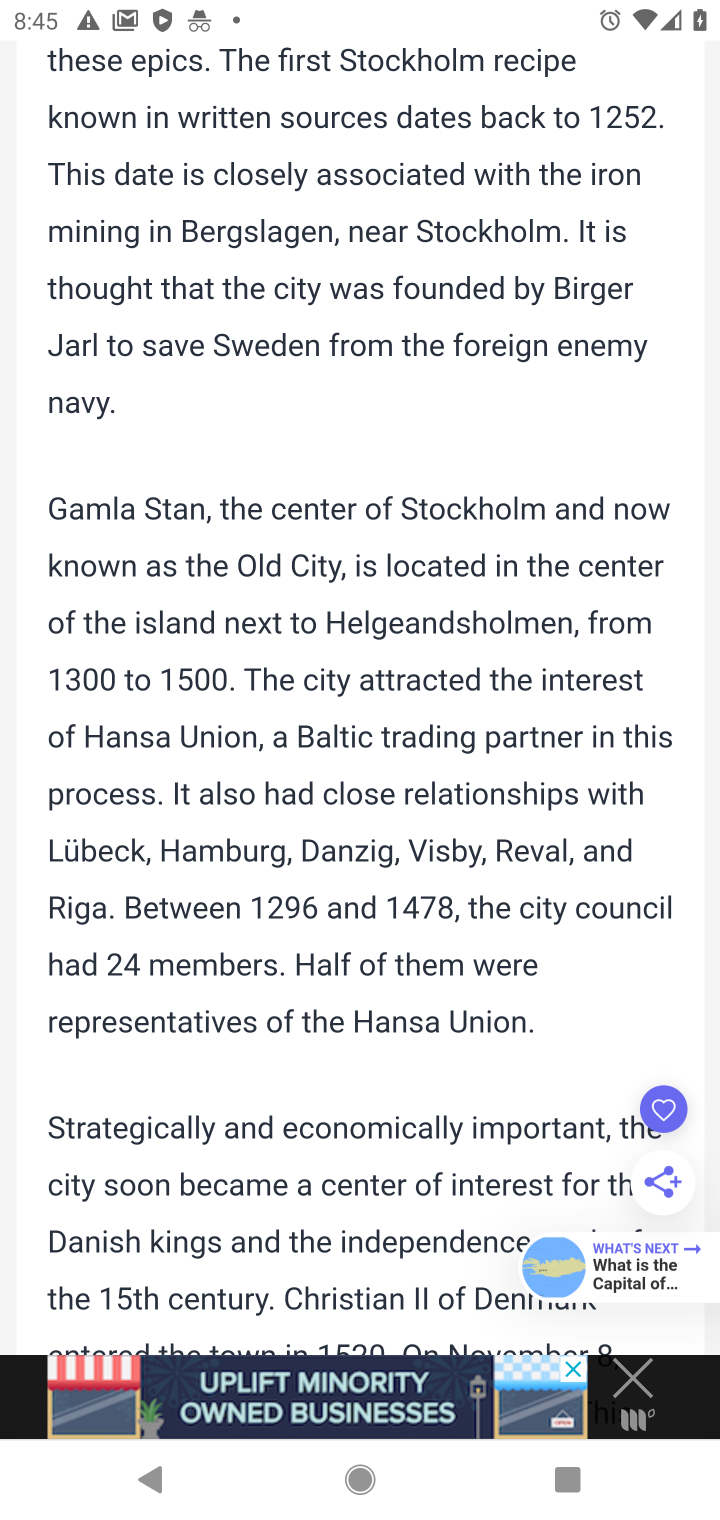
Step 32: drag from (381, 708) to (381, 392)
Your task to perform on an android device: What is the capital of Sweden? Image 33: 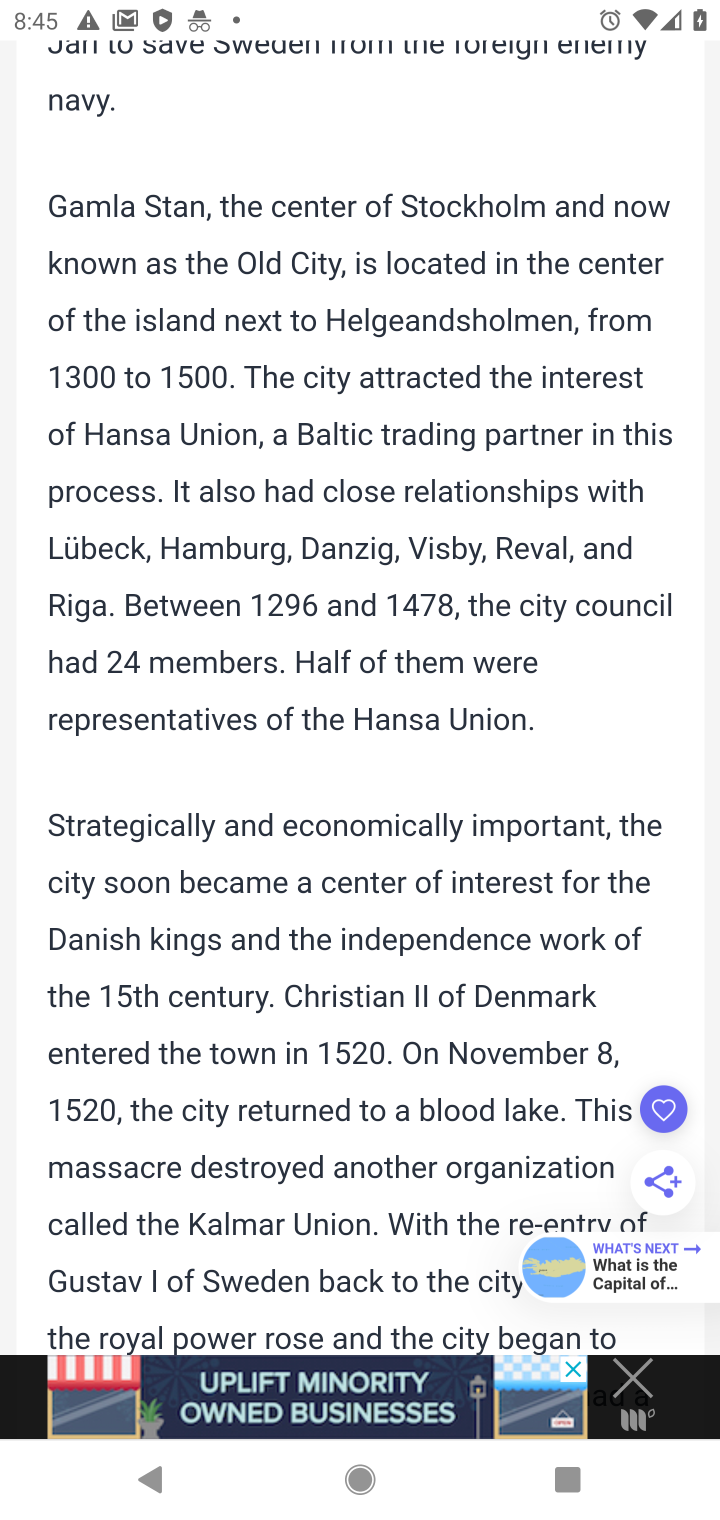
Step 33: drag from (546, 854) to (561, 338)
Your task to perform on an android device: What is the capital of Sweden? Image 34: 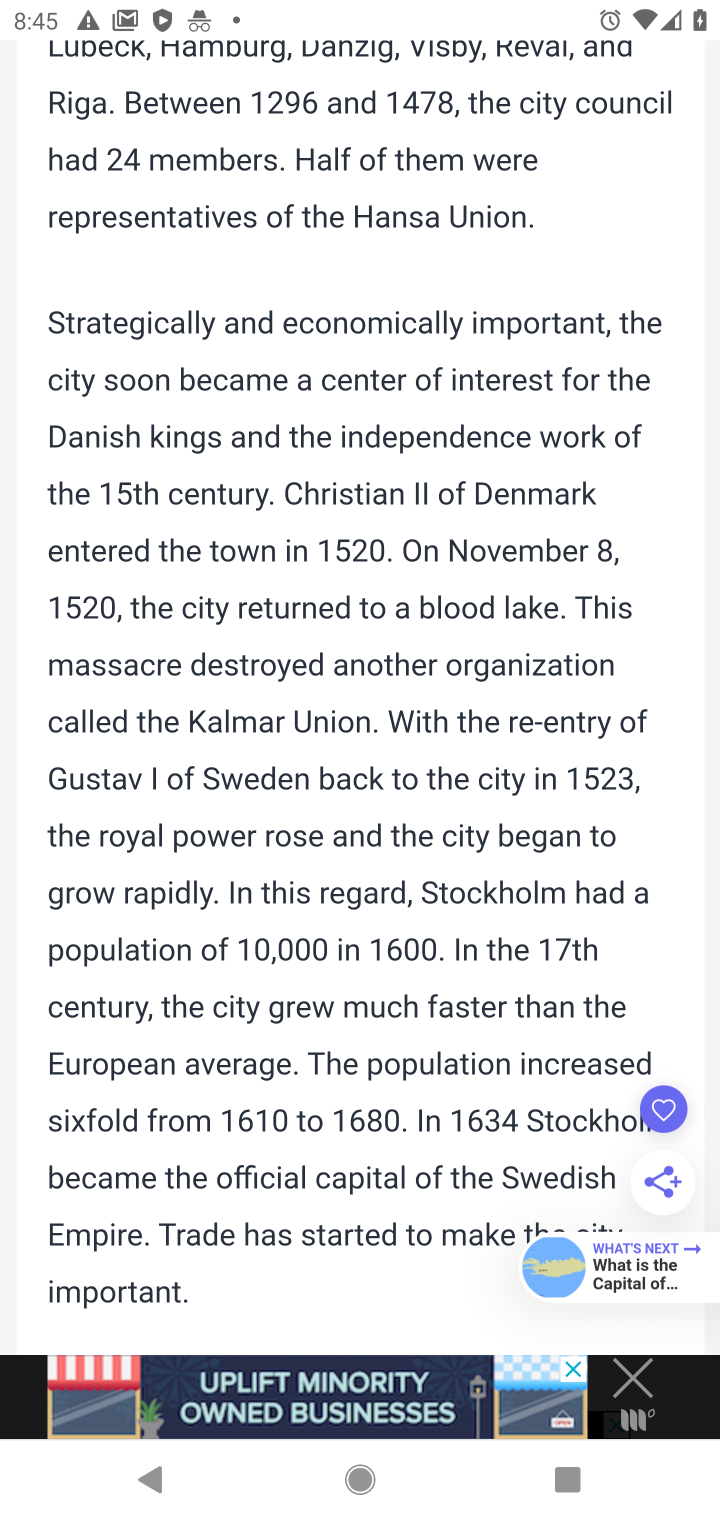
Step 34: drag from (631, 1015) to (571, 323)
Your task to perform on an android device: What is the capital of Sweden? Image 35: 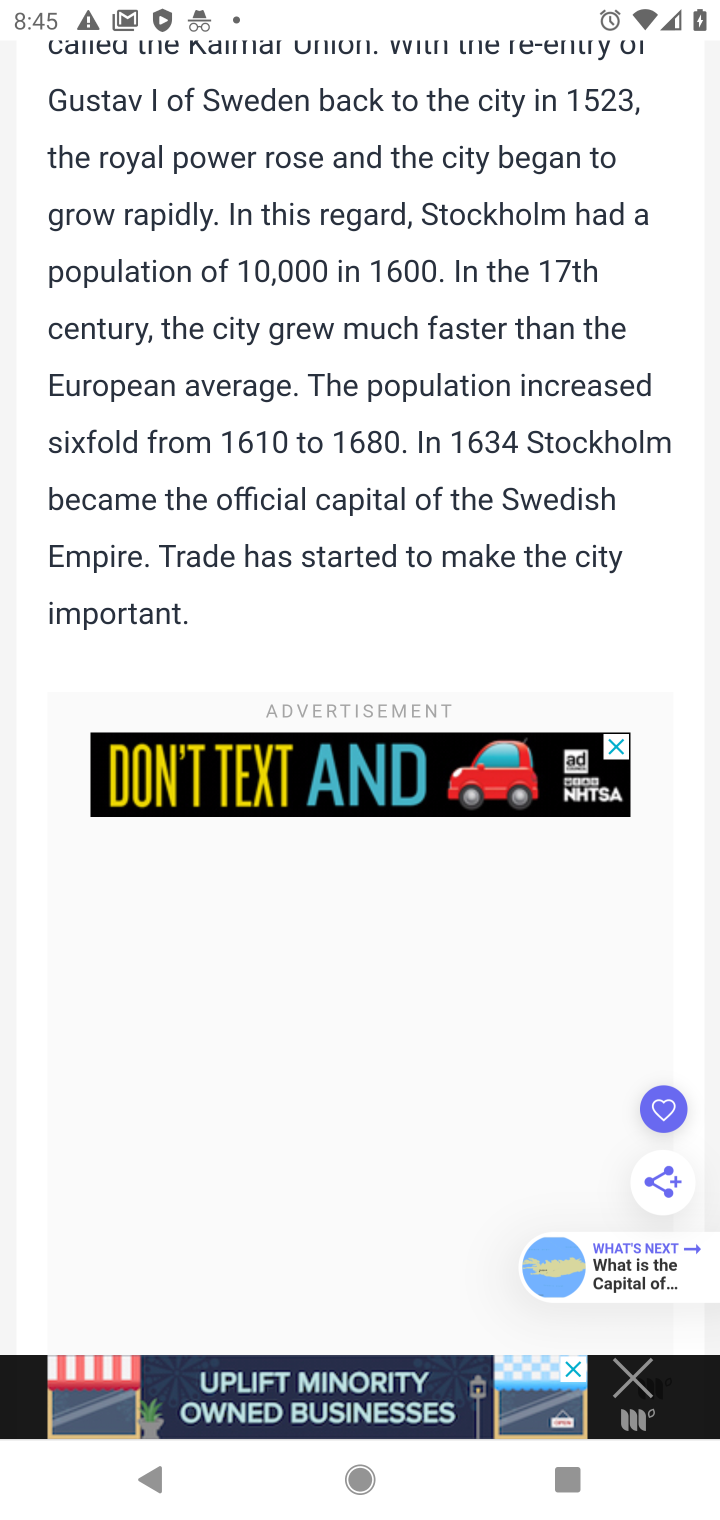
Step 35: drag from (512, 926) to (542, 128)
Your task to perform on an android device: What is the capital of Sweden? Image 36: 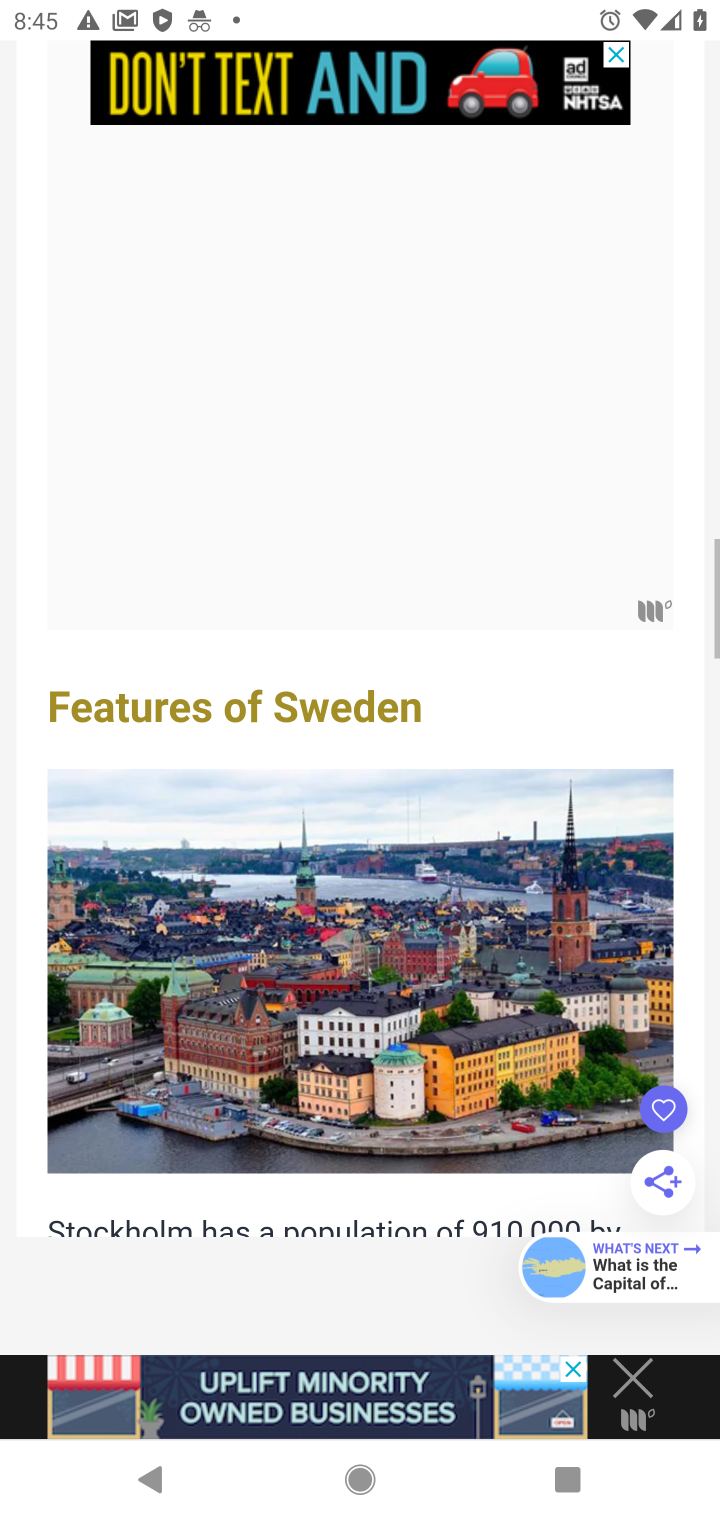
Step 36: click (583, 367)
Your task to perform on an android device: What is the capital of Sweden? Image 37: 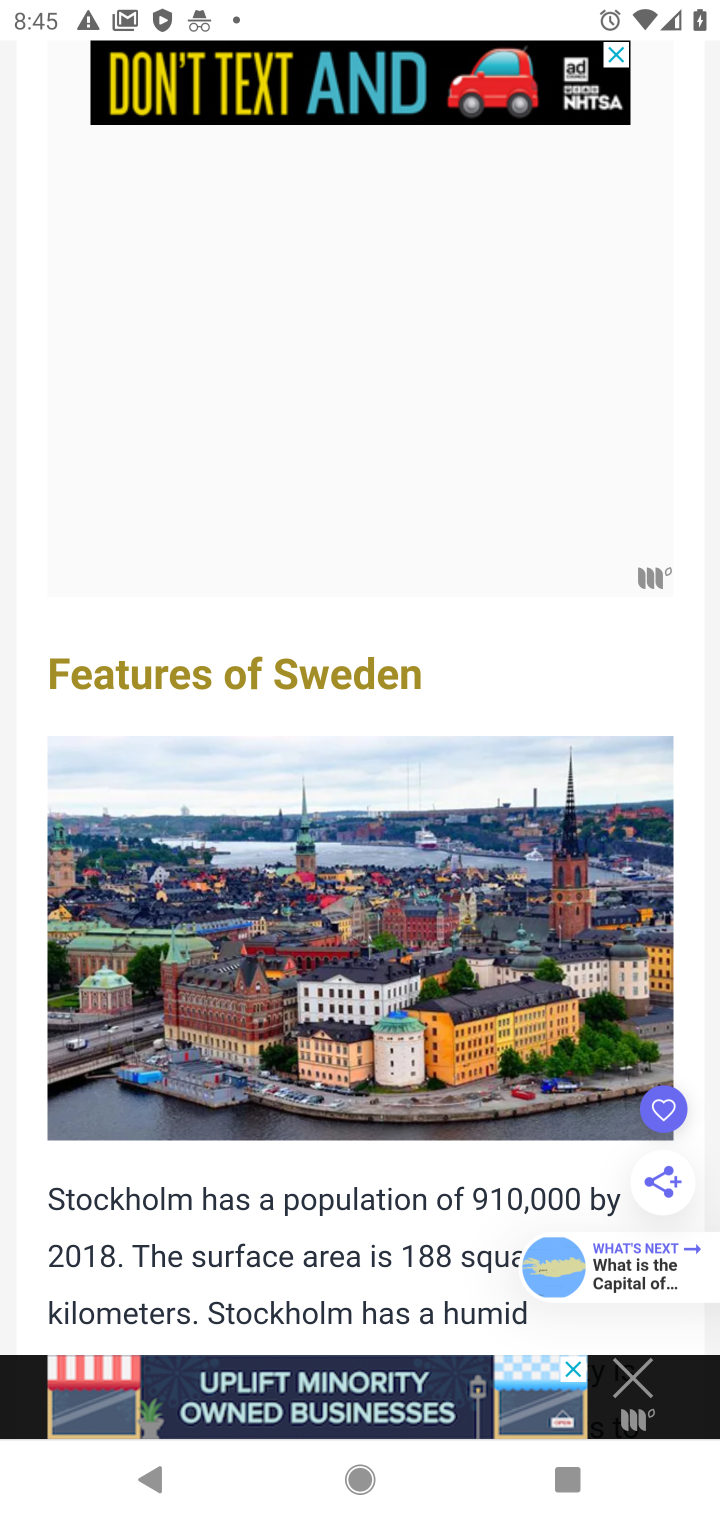
Step 37: drag from (310, 458) to (421, 339)
Your task to perform on an android device: What is the capital of Sweden? Image 38: 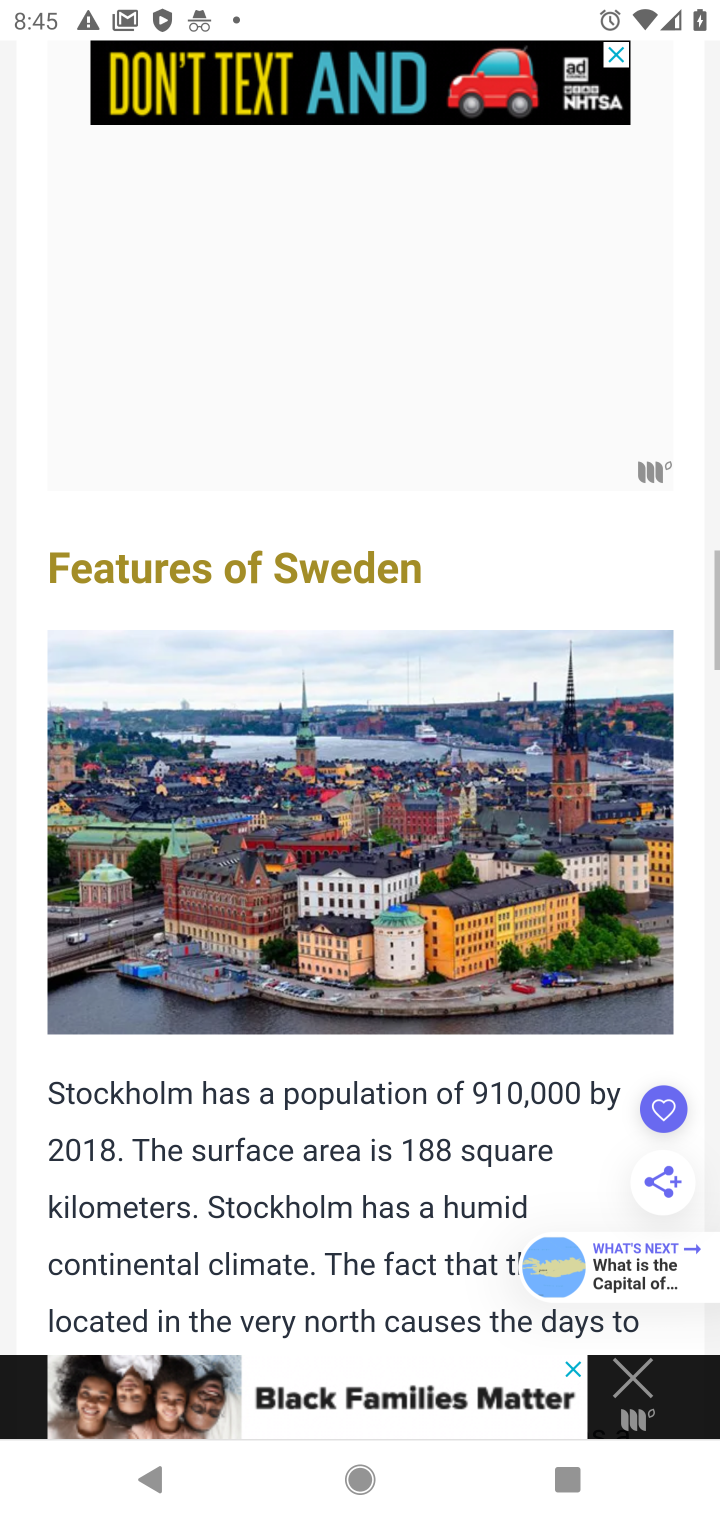
Step 38: drag from (455, 434) to (503, 131)
Your task to perform on an android device: What is the capital of Sweden? Image 39: 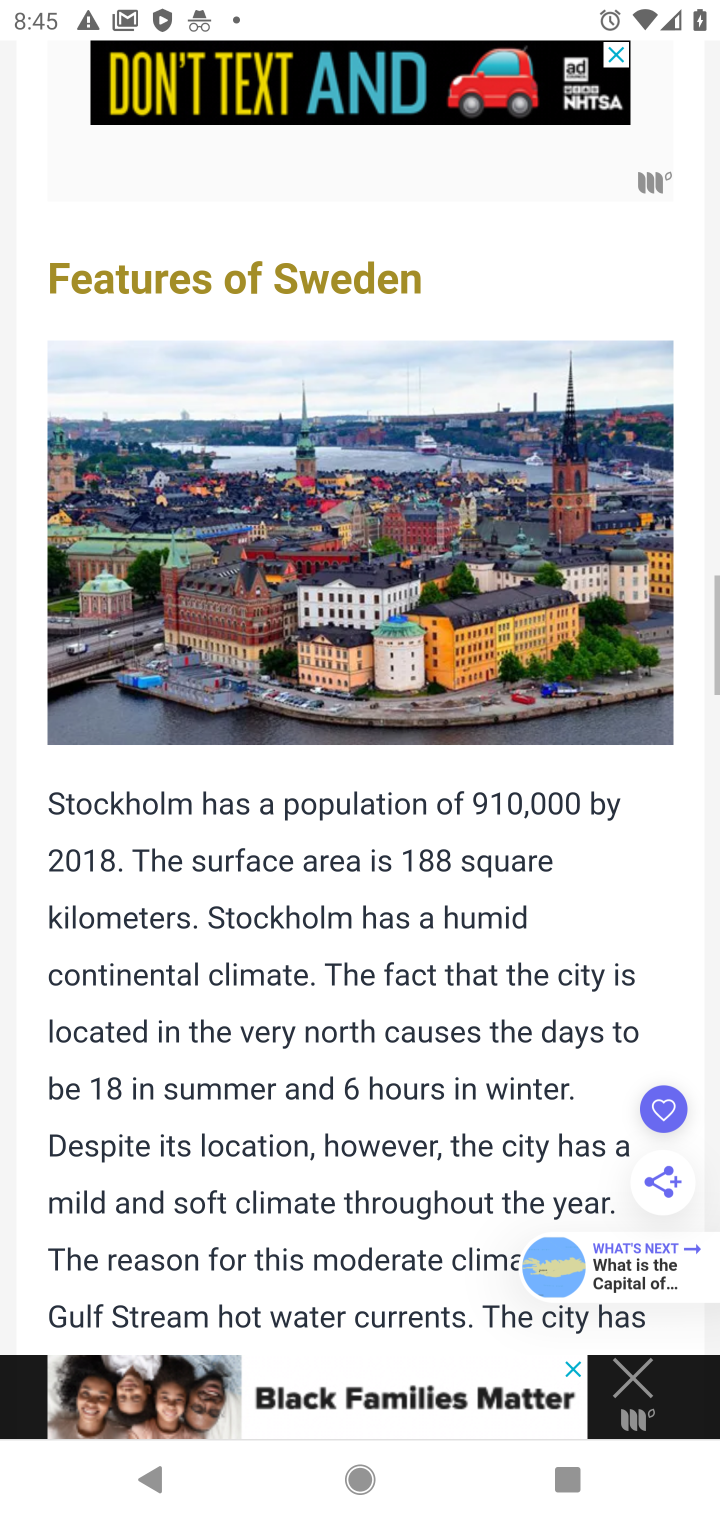
Step 39: drag from (524, 285) to (522, 134)
Your task to perform on an android device: What is the capital of Sweden? Image 40: 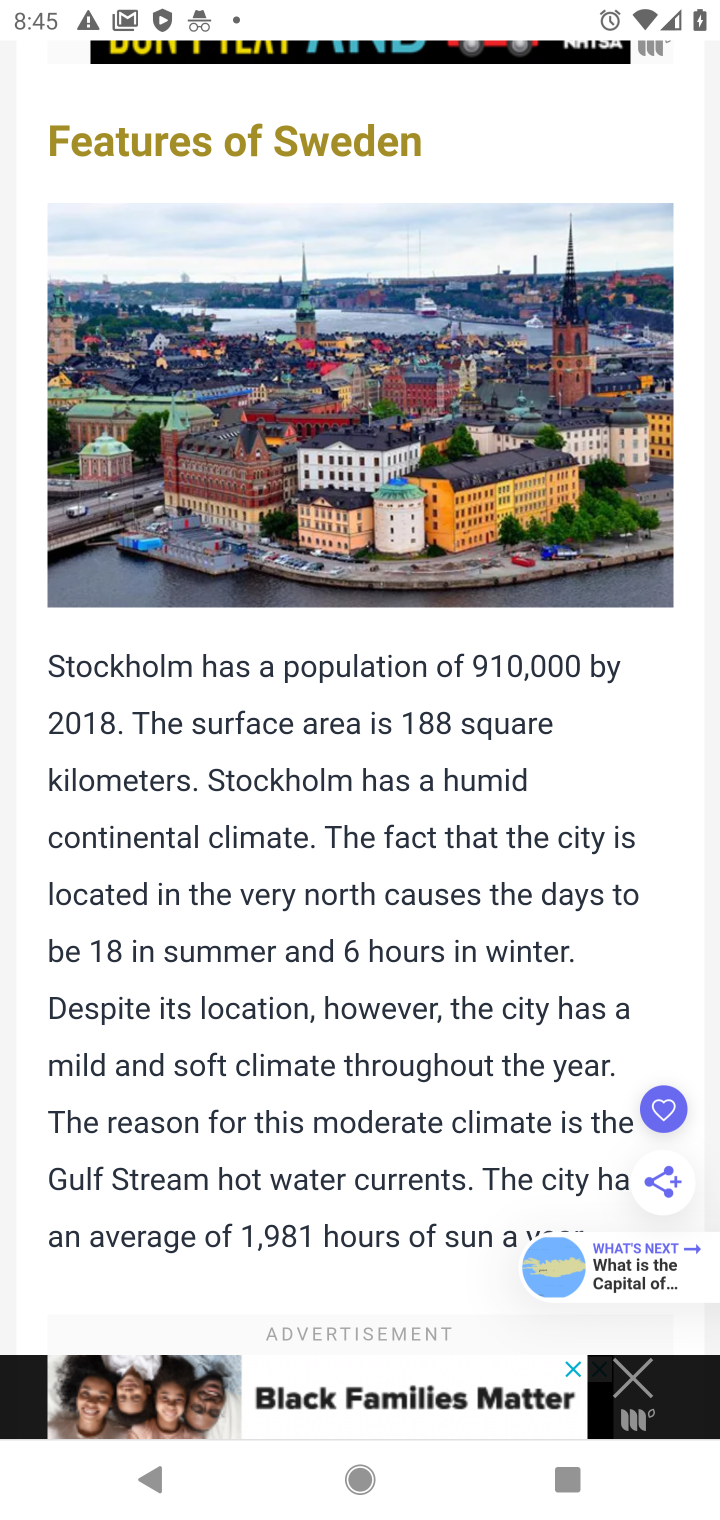
Step 40: drag from (549, 789) to (528, 82)
Your task to perform on an android device: What is the capital of Sweden? Image 41: 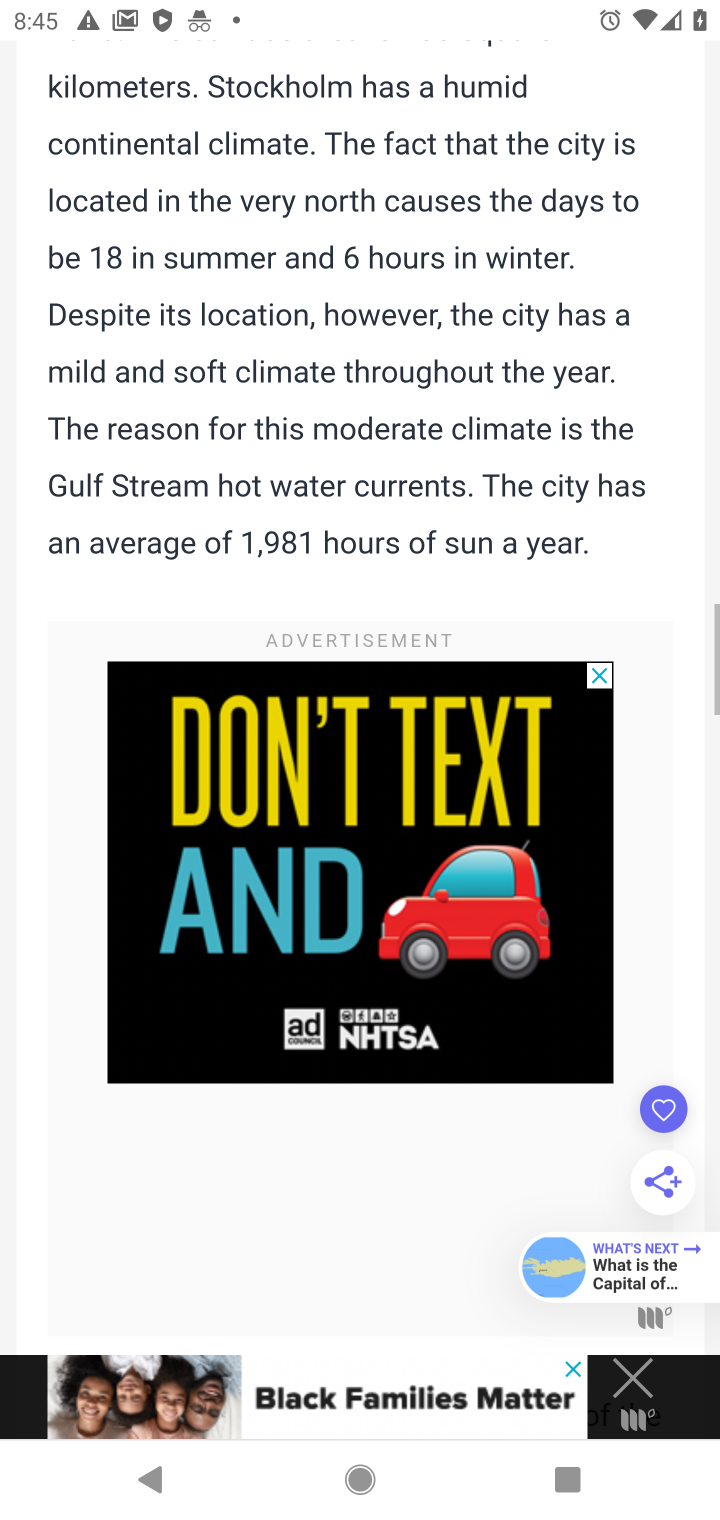
Step 41: drag from (371, 952) to (478, 5)
Your task to perform on an android device: What is the capital of Sweden? Image 42: 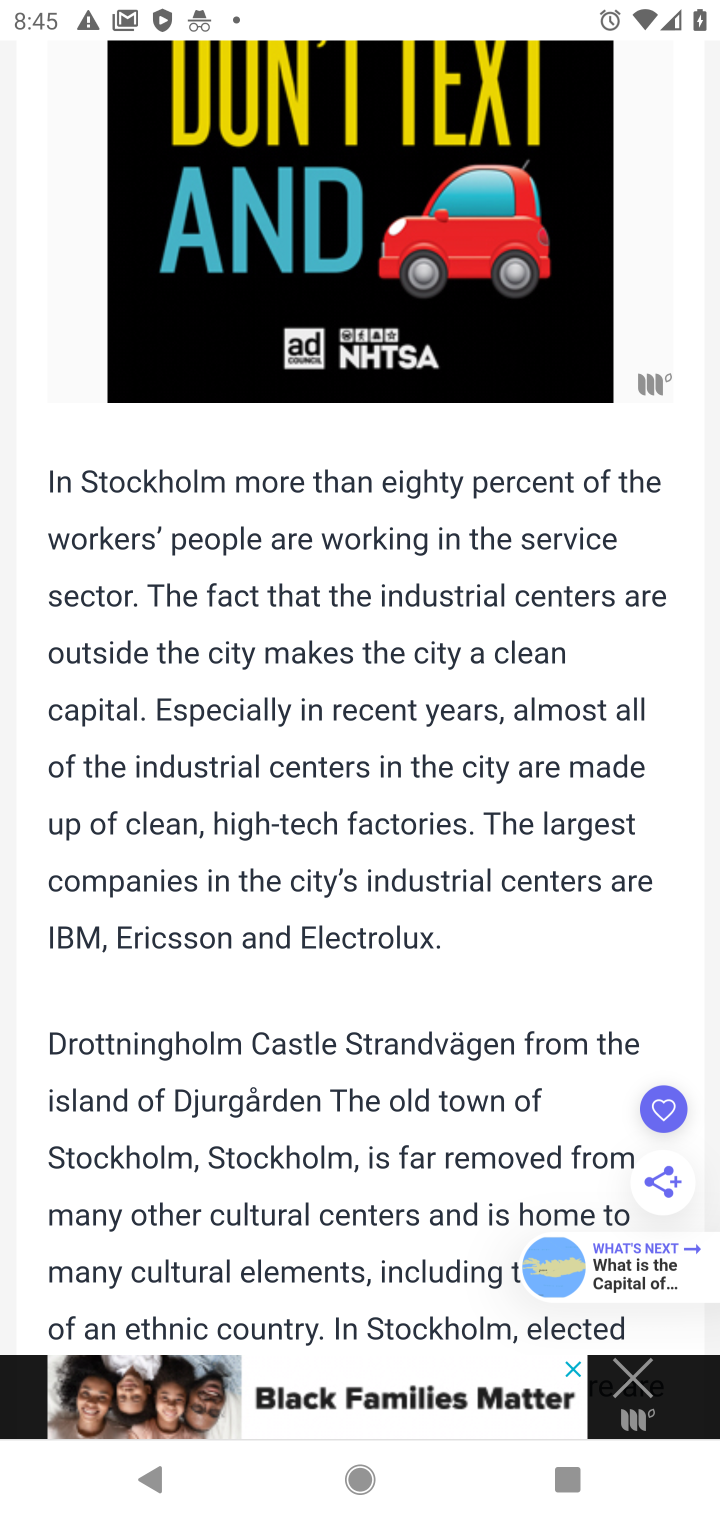
Step 42: drag from (477, 970) to (555, 150)
Your task to perform on an android device: What is the capital of Sweden? Image 43: 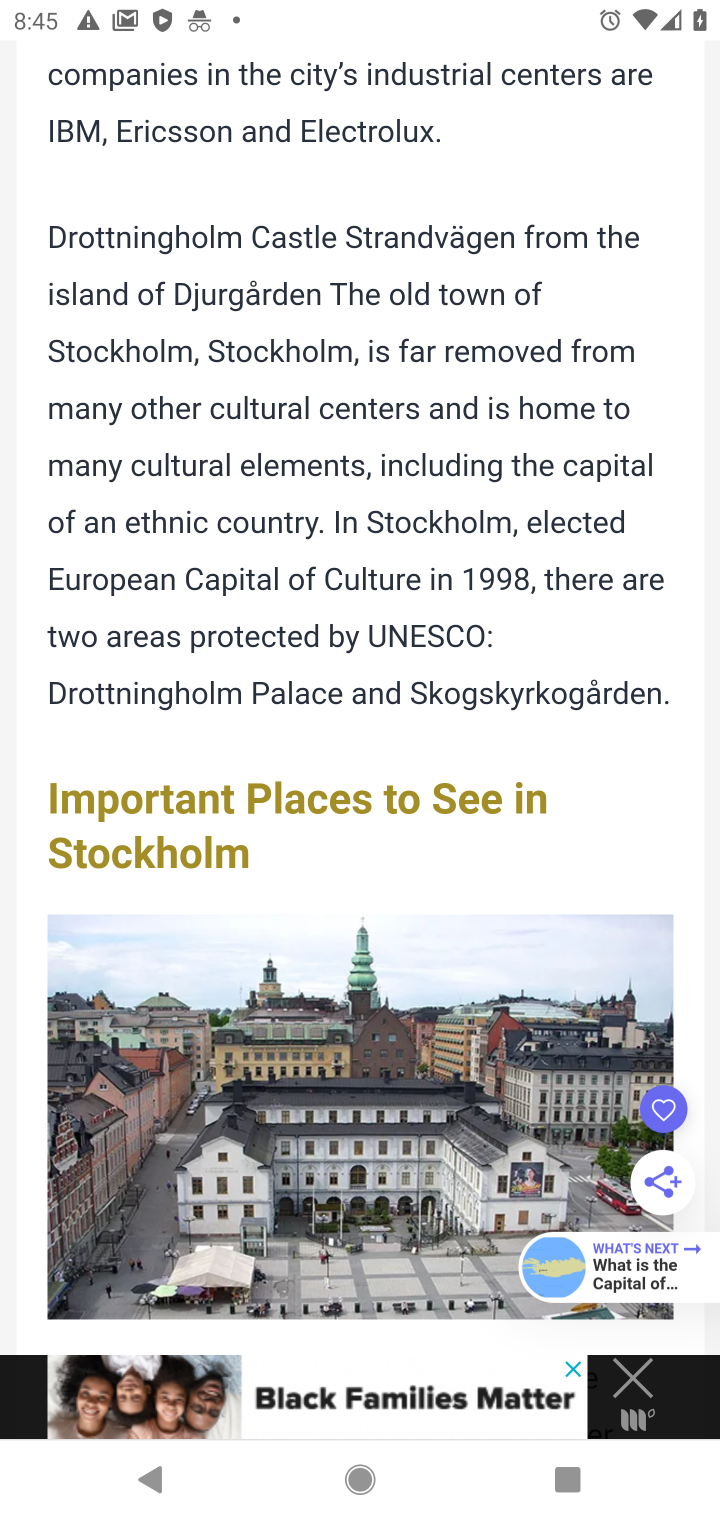
Step 43: drag from (484, 489) to (543, 44)
Your task to perform on an android device: What is the capital of Sweden? Image 44: 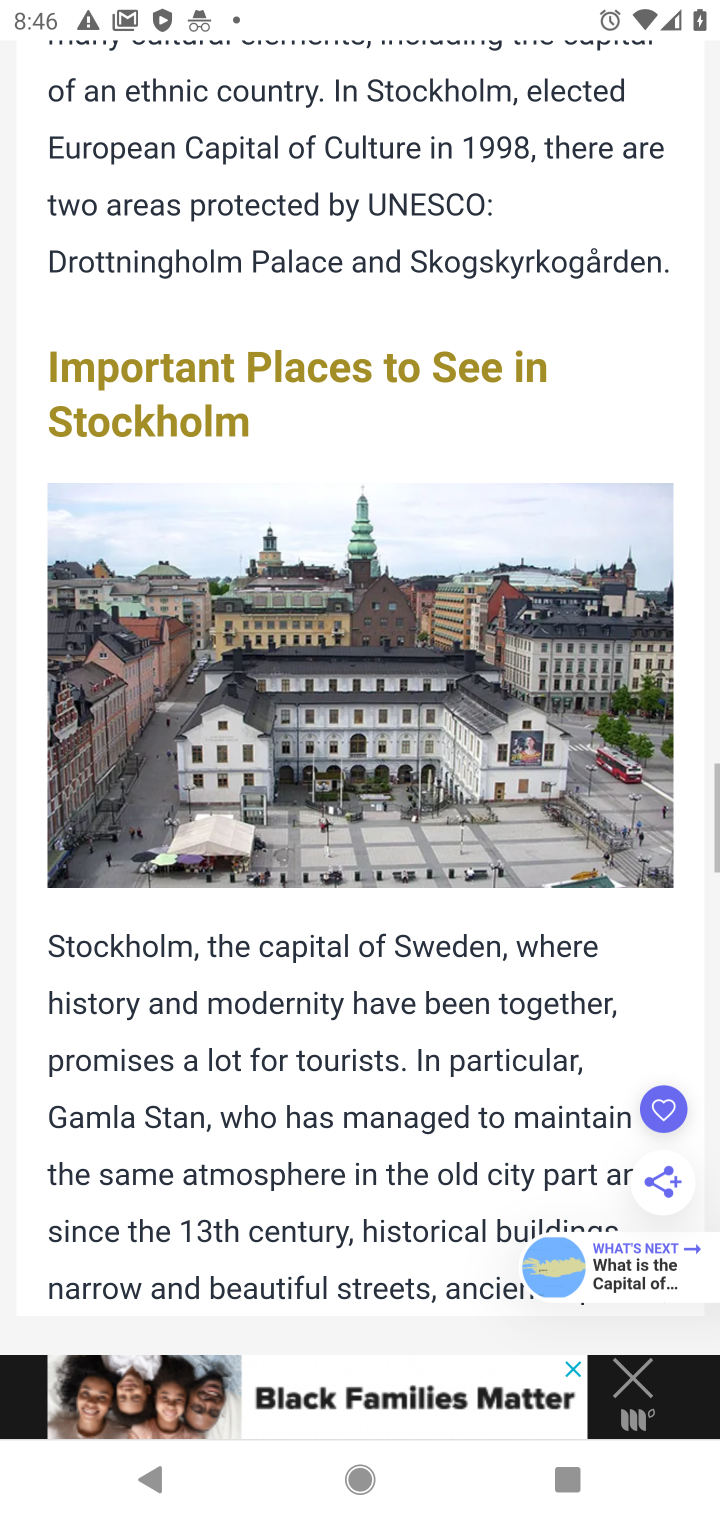
Step 44: drag from (508, 557) to (502, 184)
Your task to perform on an android device: What is the capital of Sweden? Image 45: 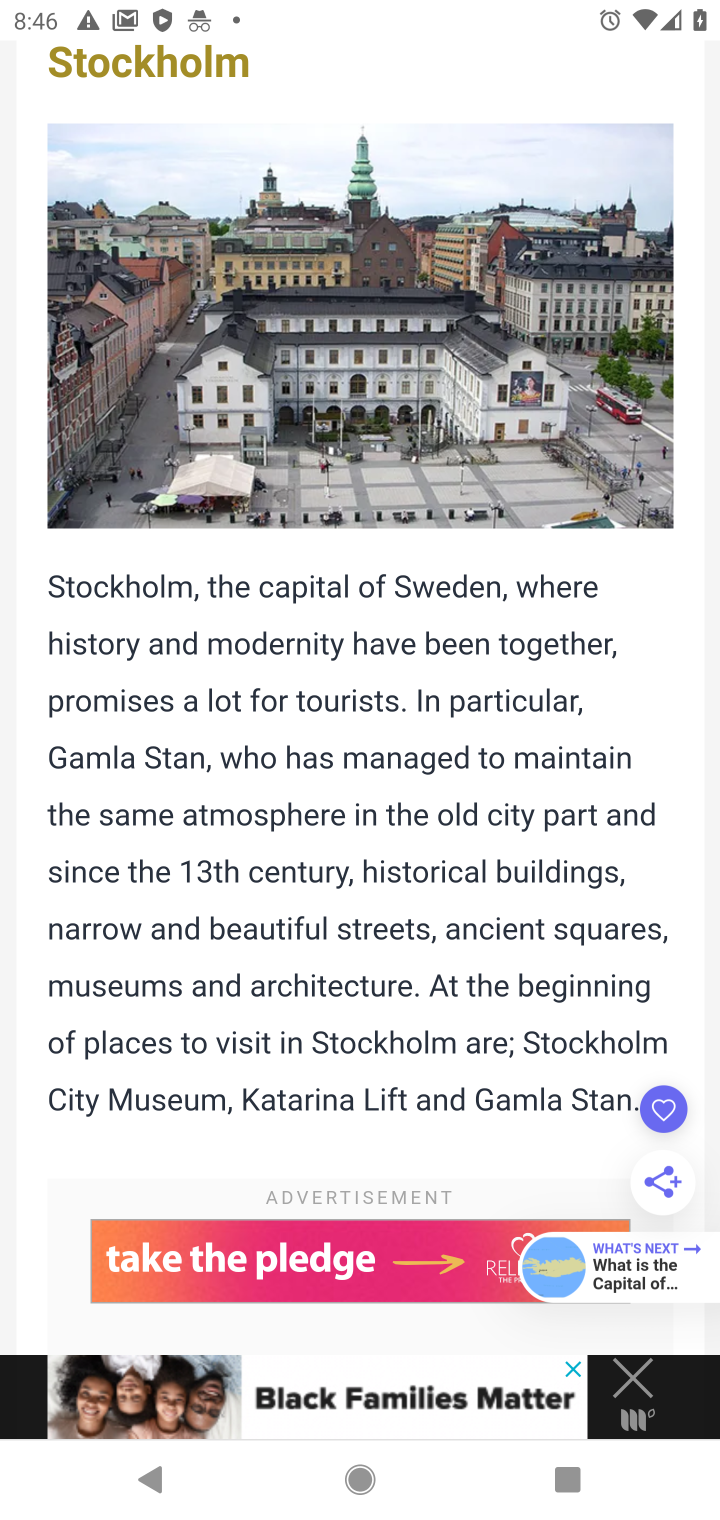
Step 45: drag from (475, 842) to (445, 118)
Your task to perform on an android device: What is the capital of Sweden? Image 46: 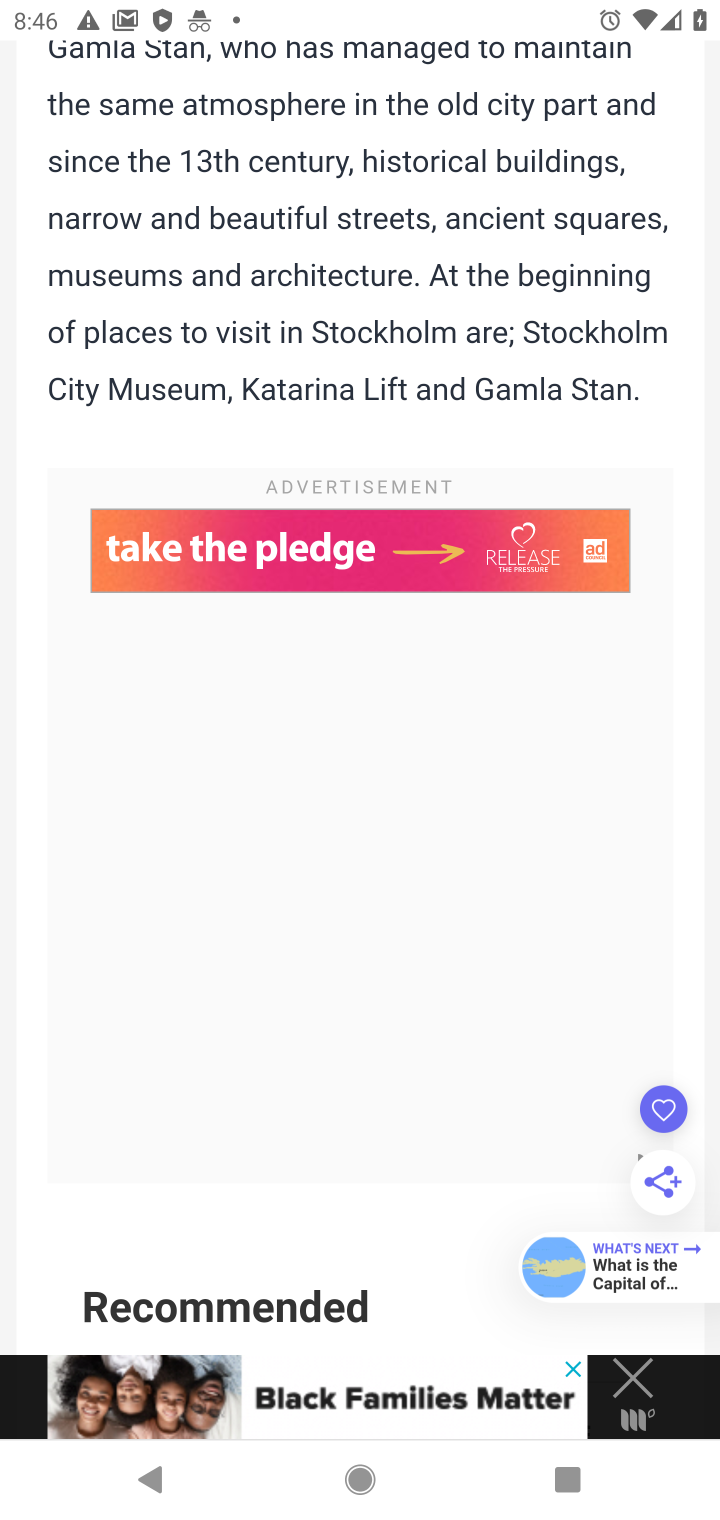
Step 46: drag from (449, 1212) to (479, 308)
Your task to perform on an android device: What is the capital of Sweden? Image 47: 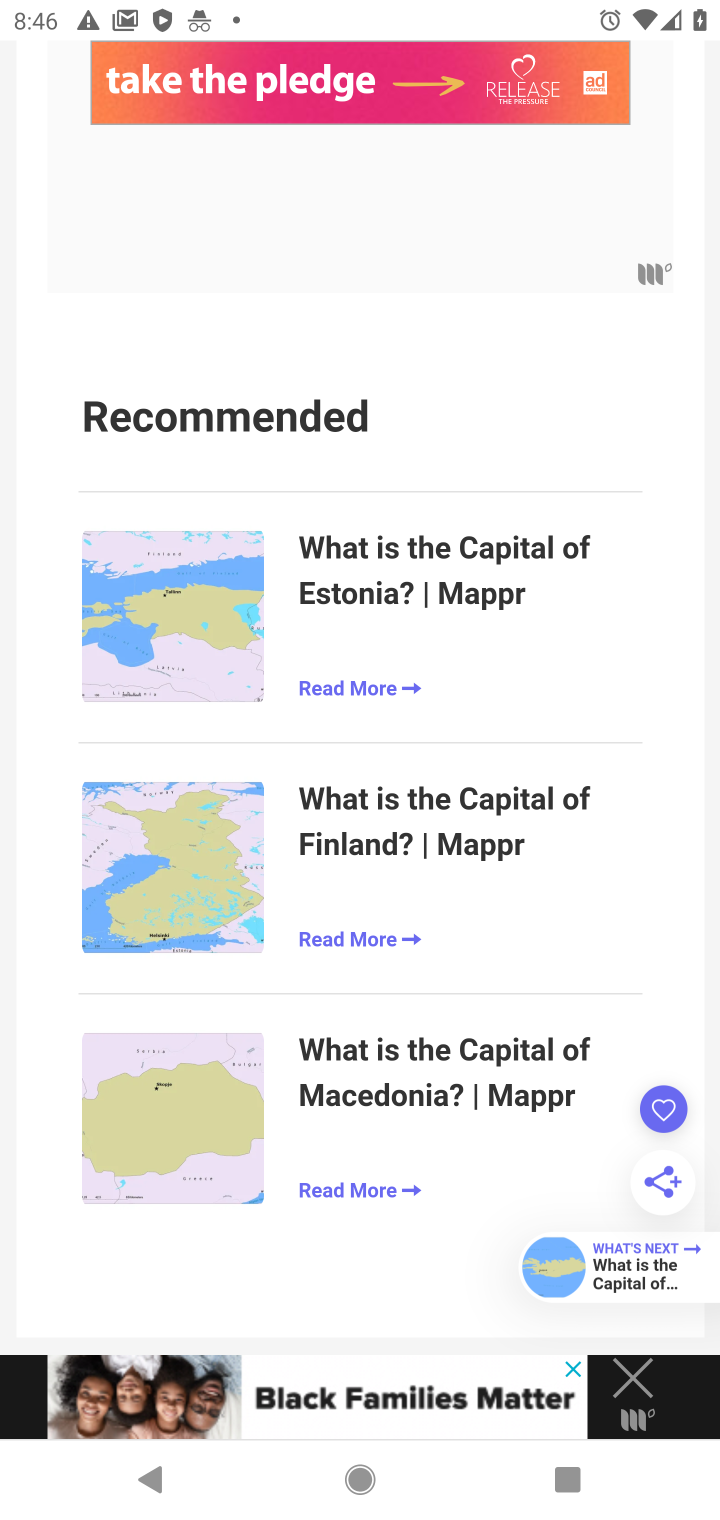
Step 47: drag from (433, 1131) to (445, 326)
Your task to perform on an android device: What is the capital of Sweden? Image 48: 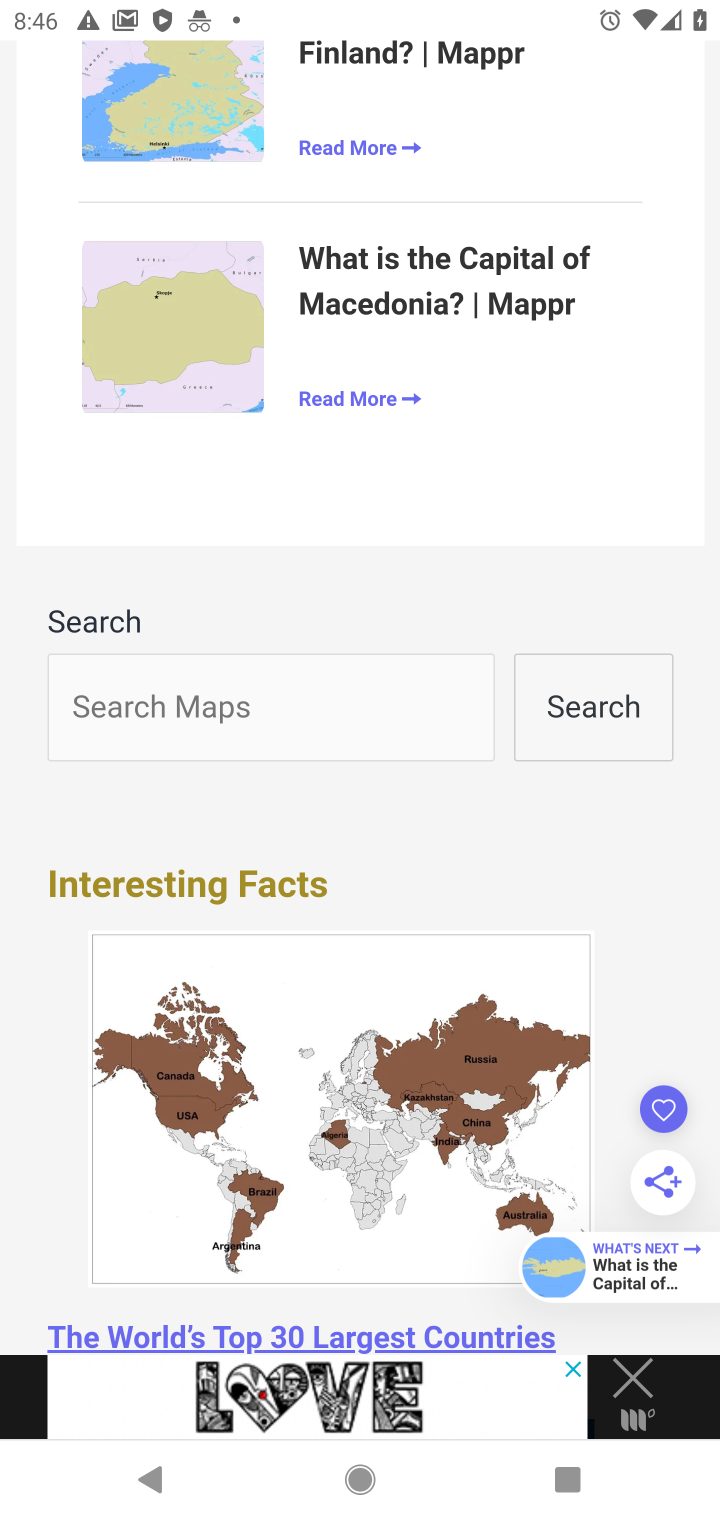
Step 48: drag from (440, 1008) to (546, 123)
Your task to perform on an android device: What is the capital of Sweden? Image 49: 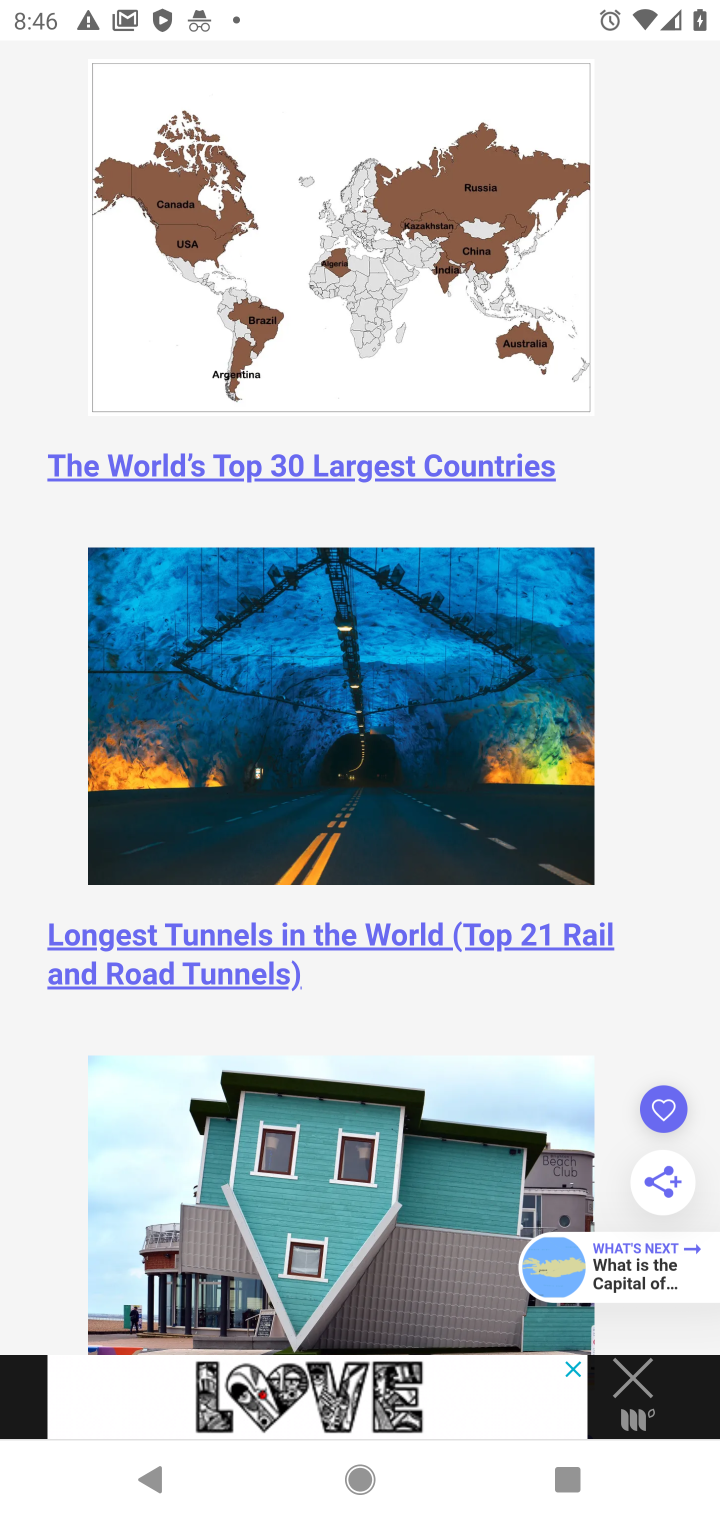
Step 49: drag from (595, 1066) to (532, 171)
Your task to perform on an android device: What is the capital of Sweden? Image 50: 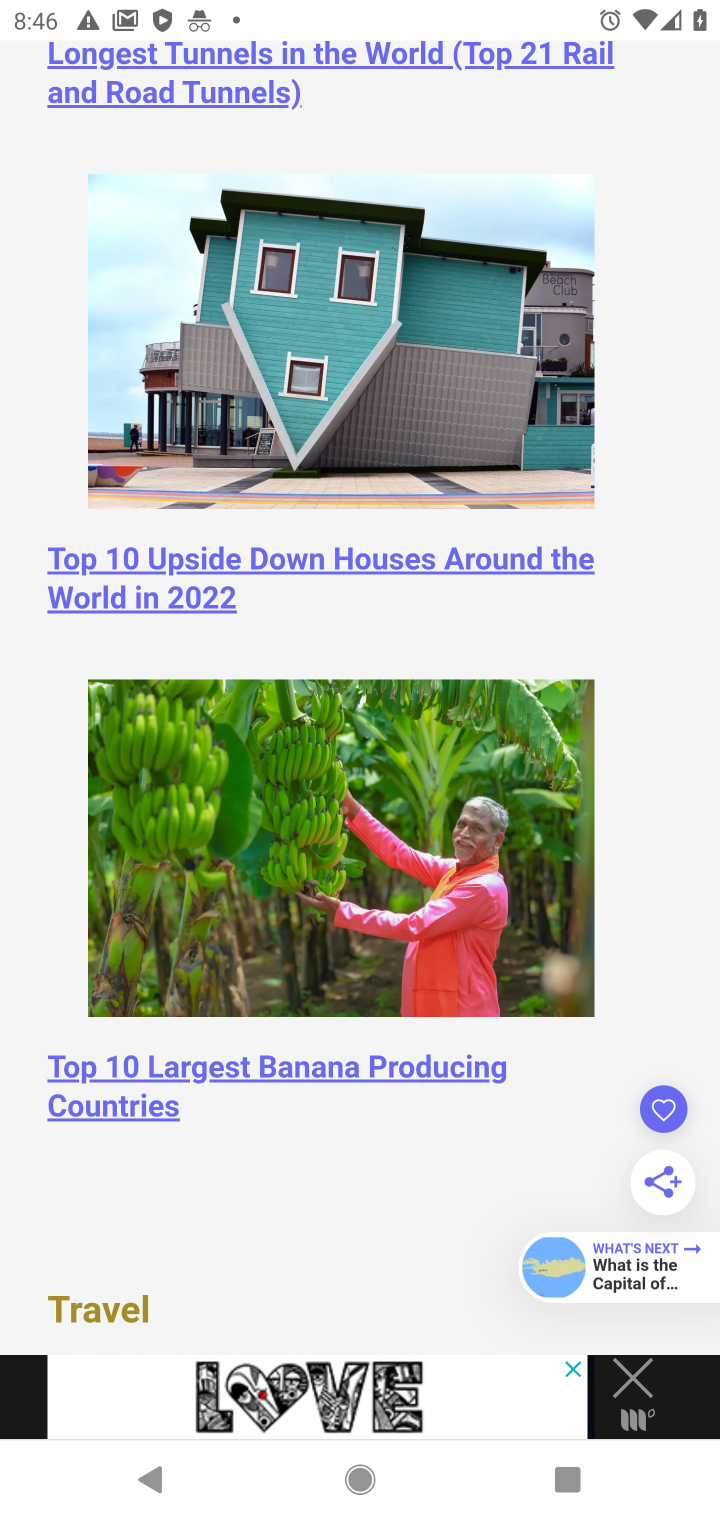
Step 50: press back button
Your task to perform on an android device: What is the capital of Sweden? Image 51: 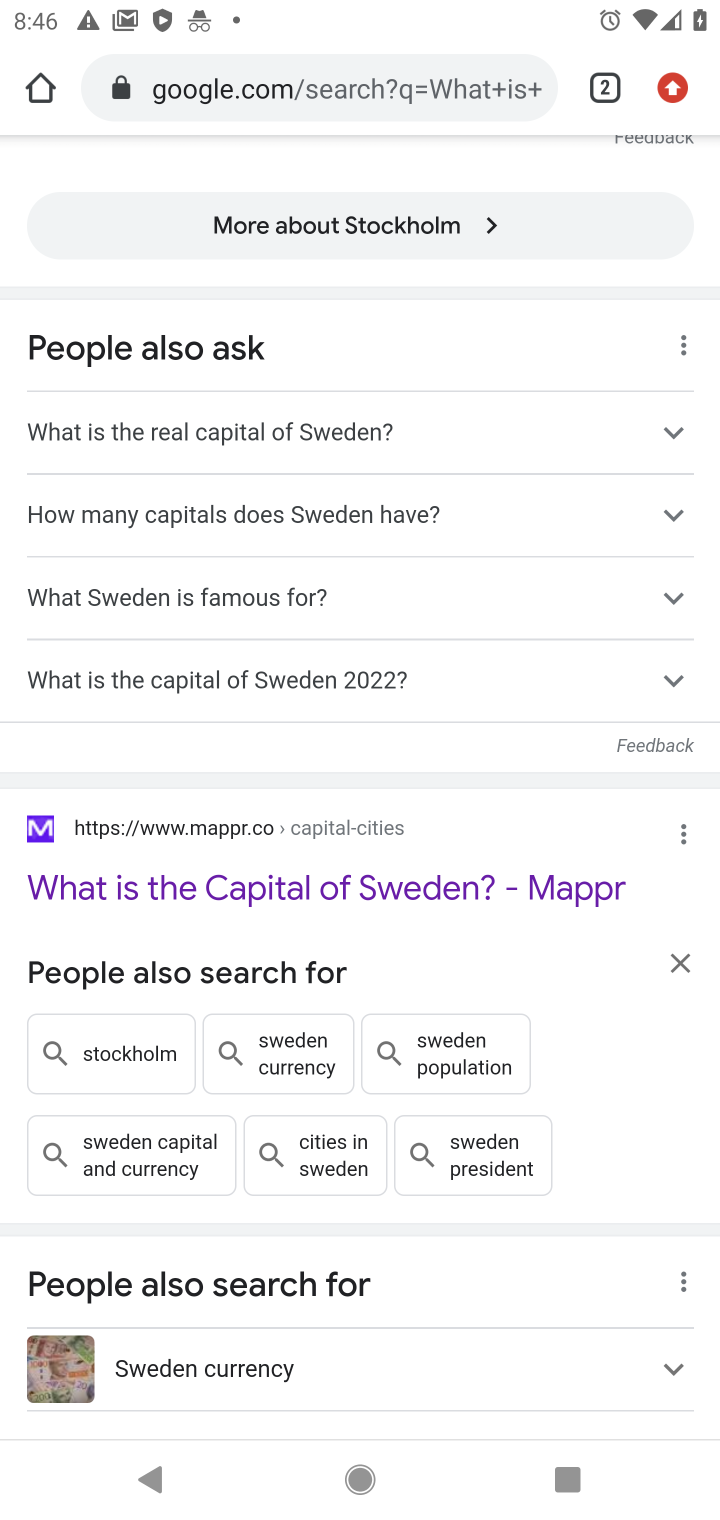
Step 51: drag from (420, 1190) to (416, 254)
Your task to perform on an android device: What is the capital of Sweden? Image 52: 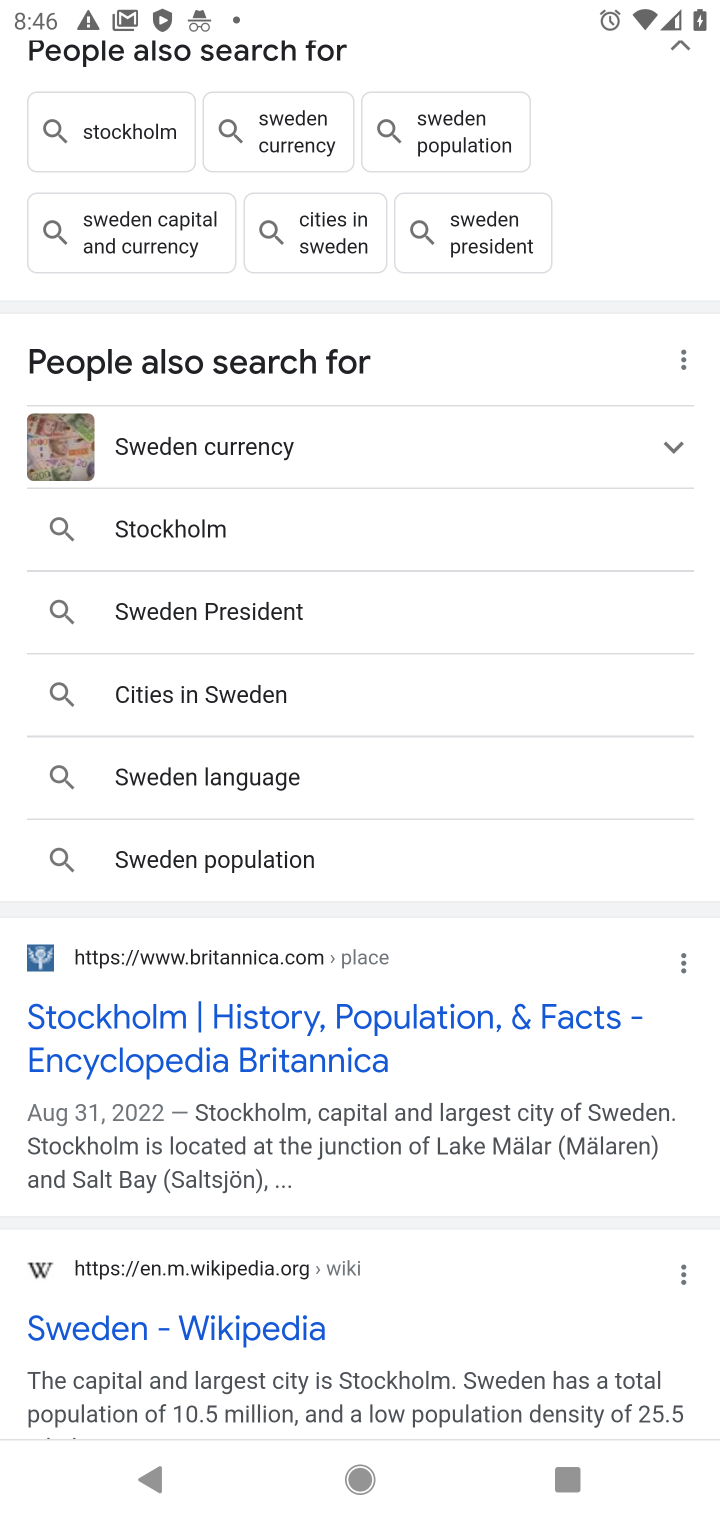
Step 52: click (345, 1008)
Your task to perform on an android device: What is the capital of Sweden? Image 53: 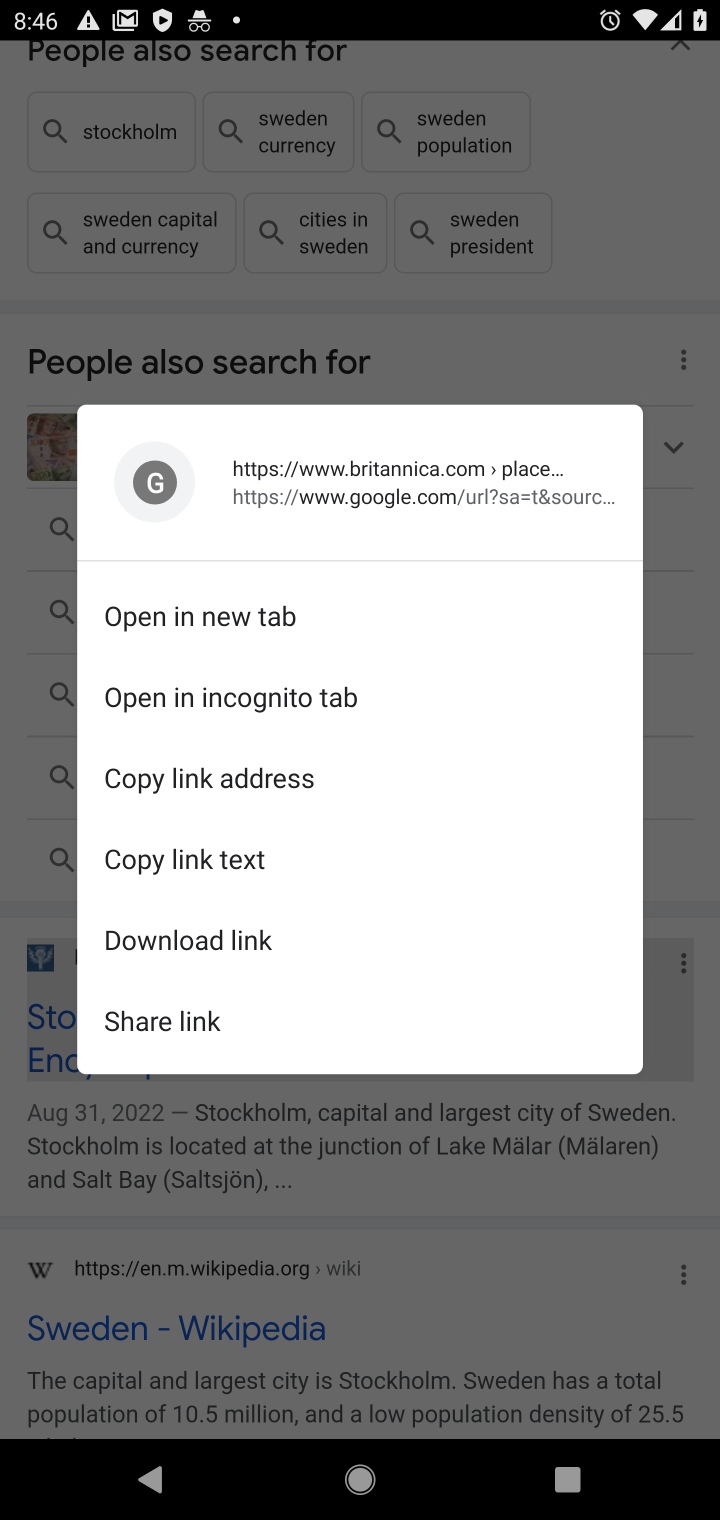
Step 53: click (378, 1221)
Your task to perform on an android device: What is the capital of Sweden? Image 54: 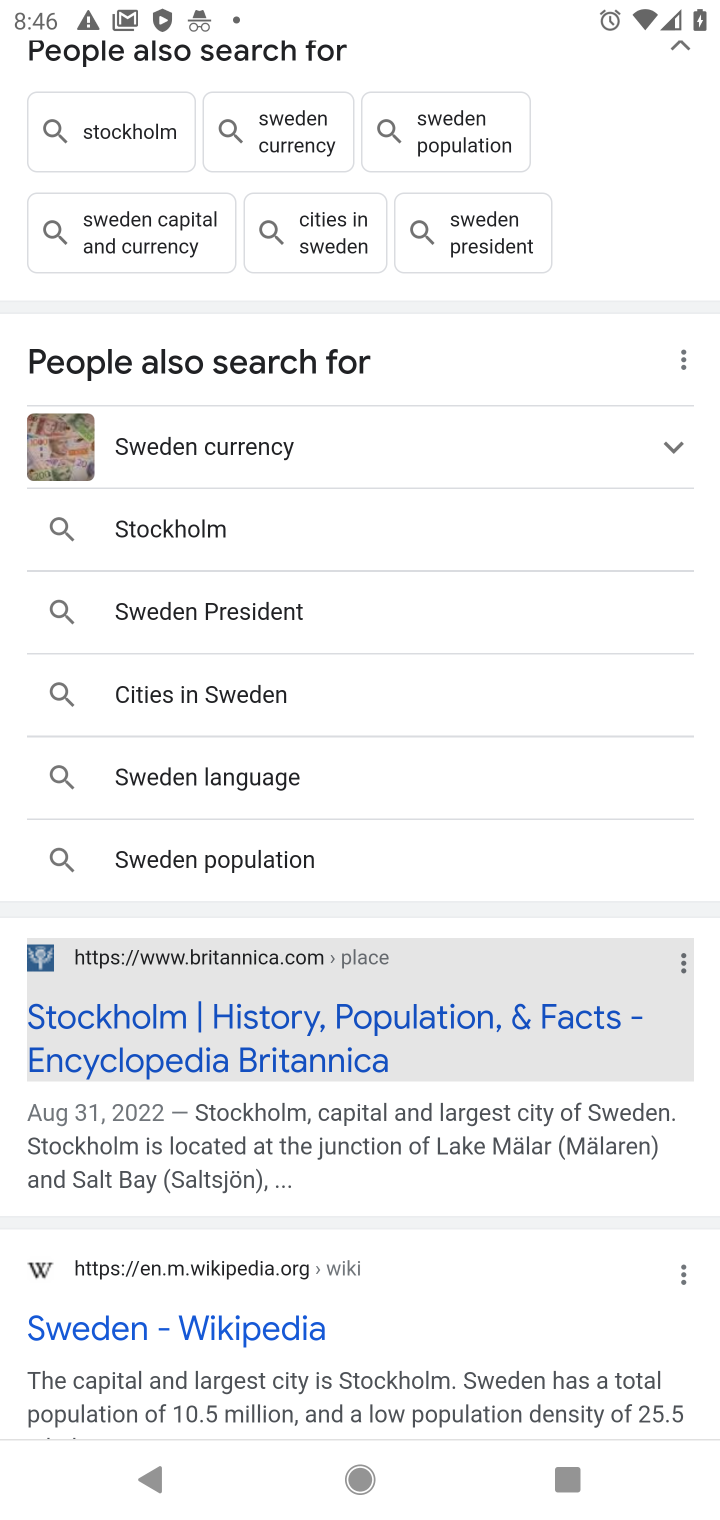
Step 54: click (260, 1050)
Your task to perform on an android device: What is the capital of Sweden? Image 55: 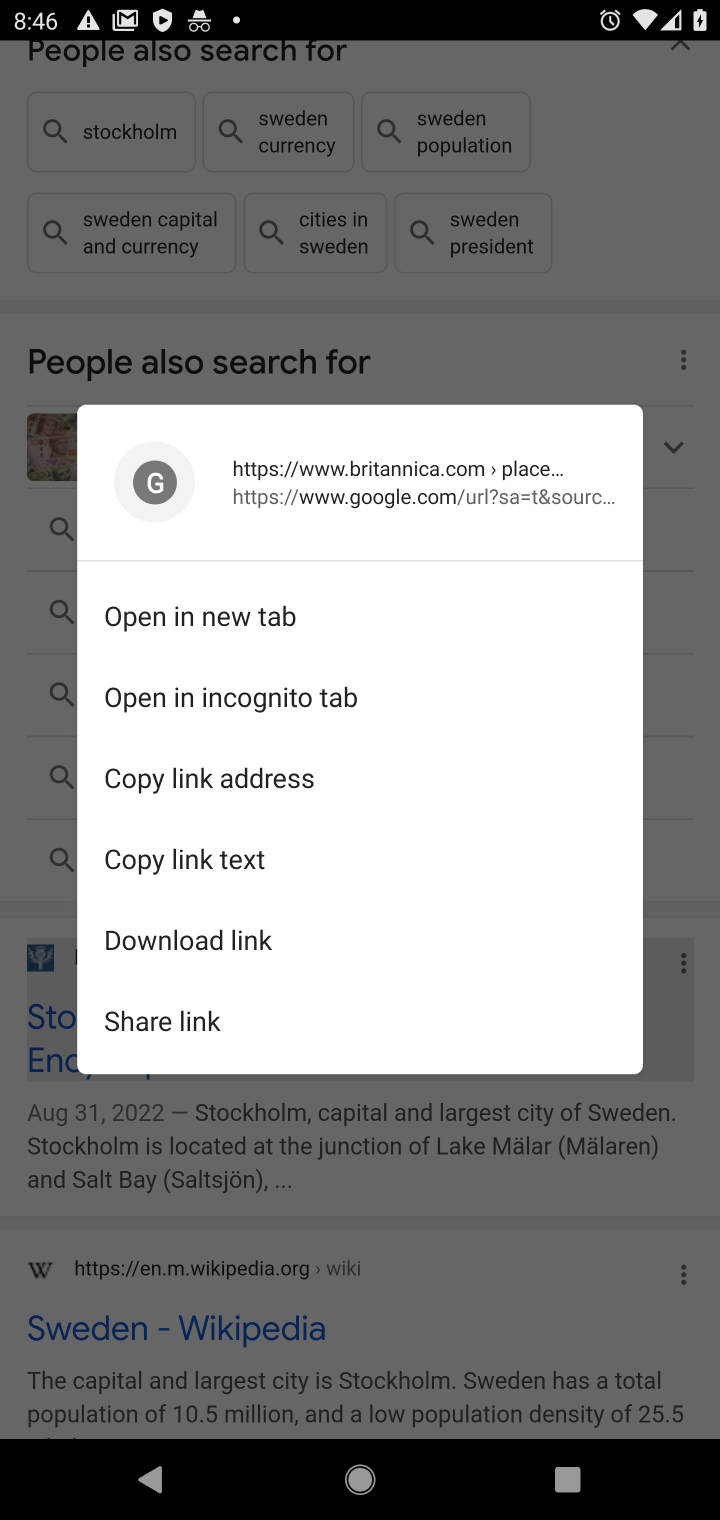
Step 55: click (395, 1323)
Your task to perform on an android device: What is the capital of Sweden? Image 56: 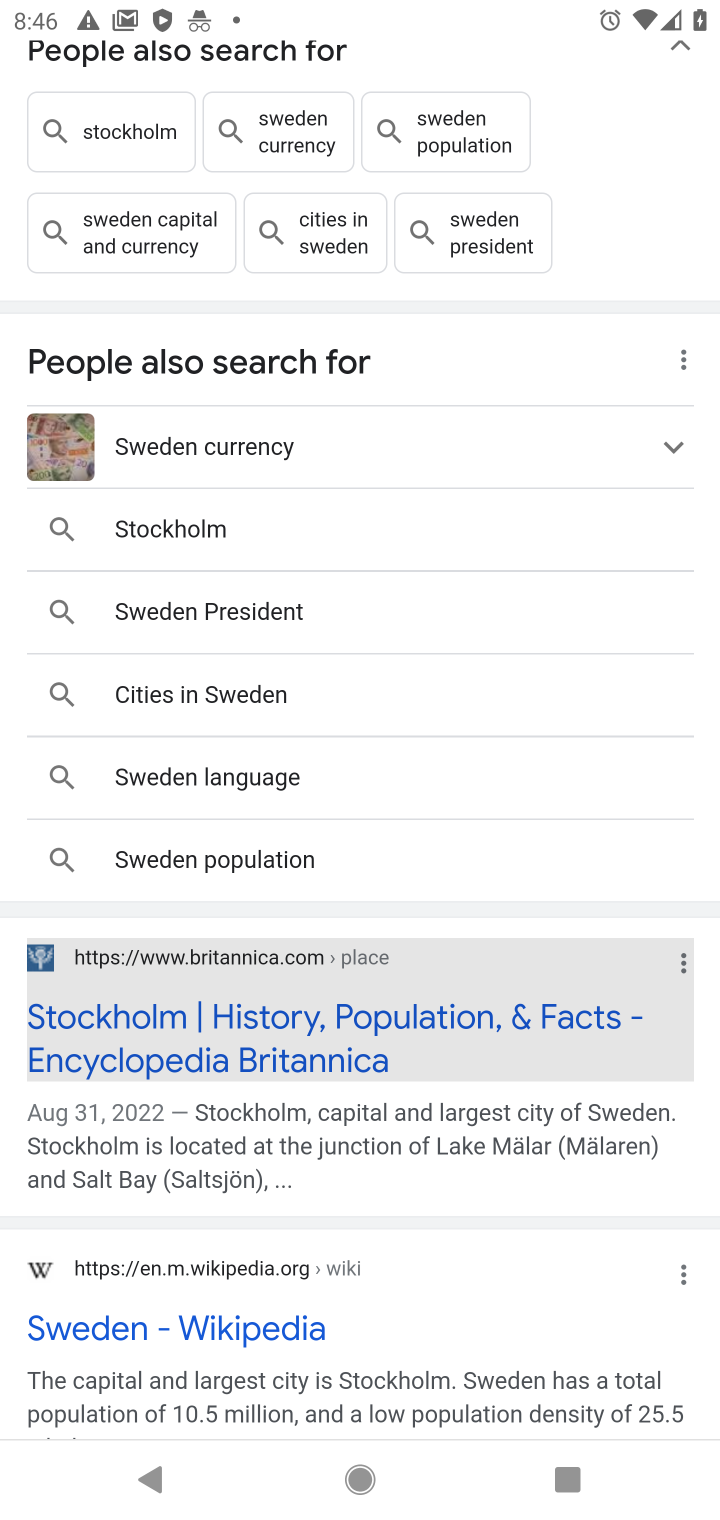
Step 56: click (95, 1063)
Your task to perform on an android device: What is the capital of Sweden? Image 57: 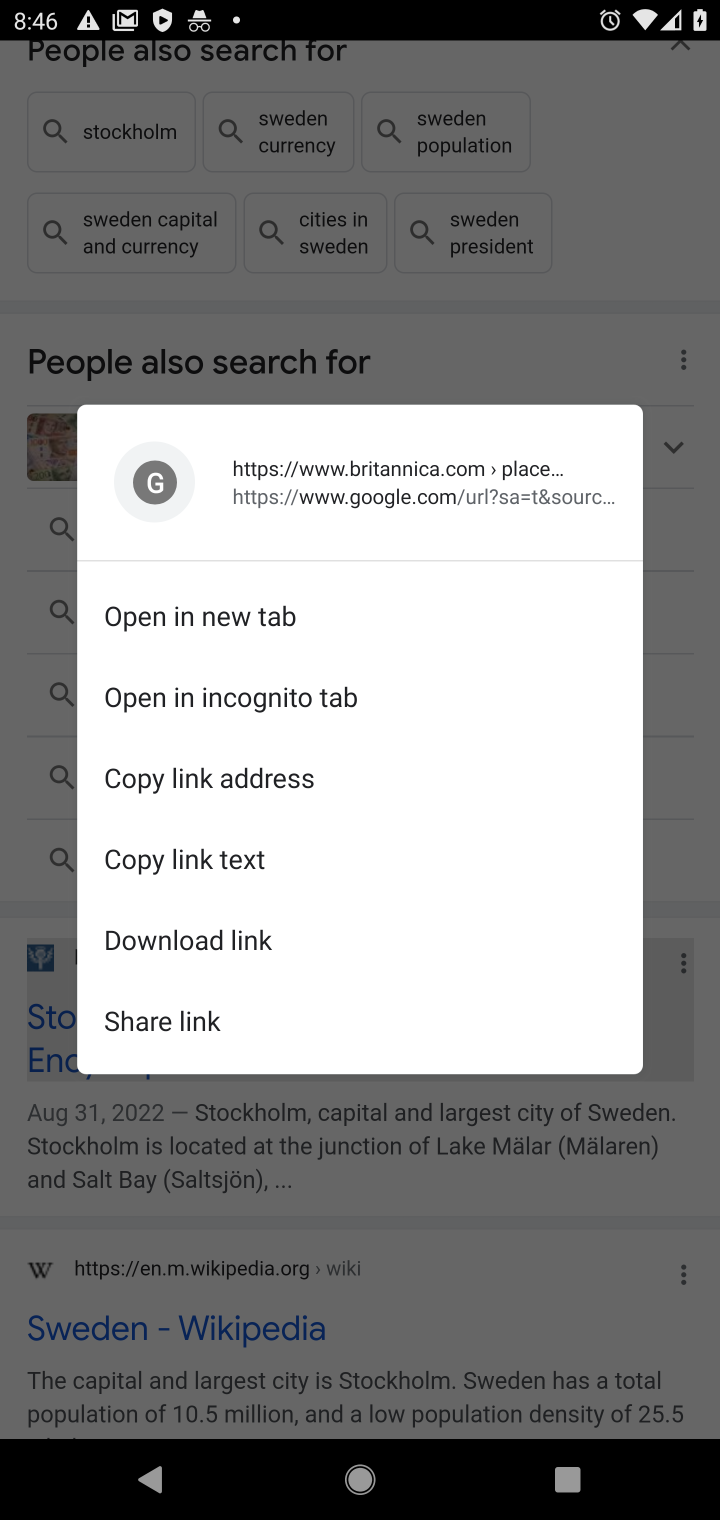
Step 57: click (479, 1212)
Your task to perform on an android device: What is the capital of Sweden? Image 58: 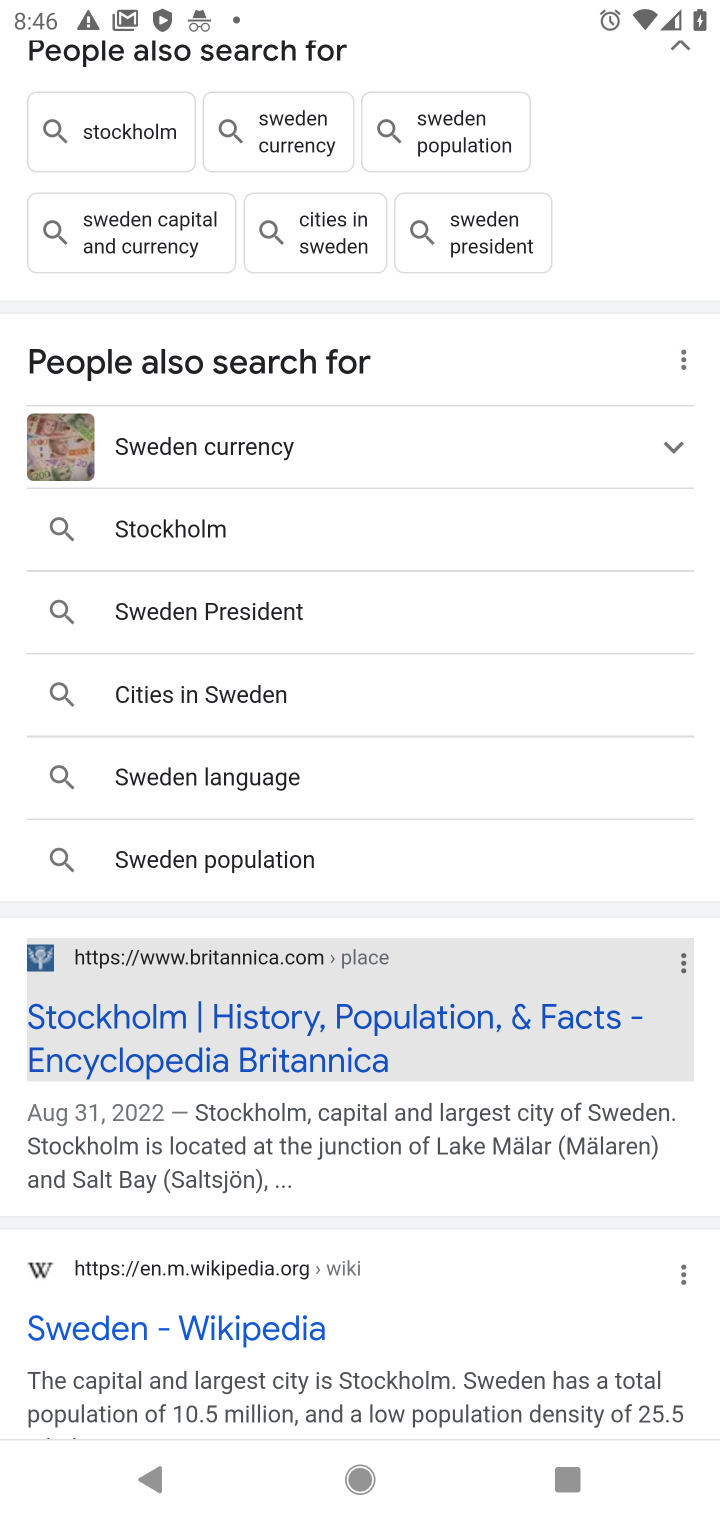
Step 58: click (215, 999)
Your task to perform on an android device: What is the capital of Sweden? Image 59: 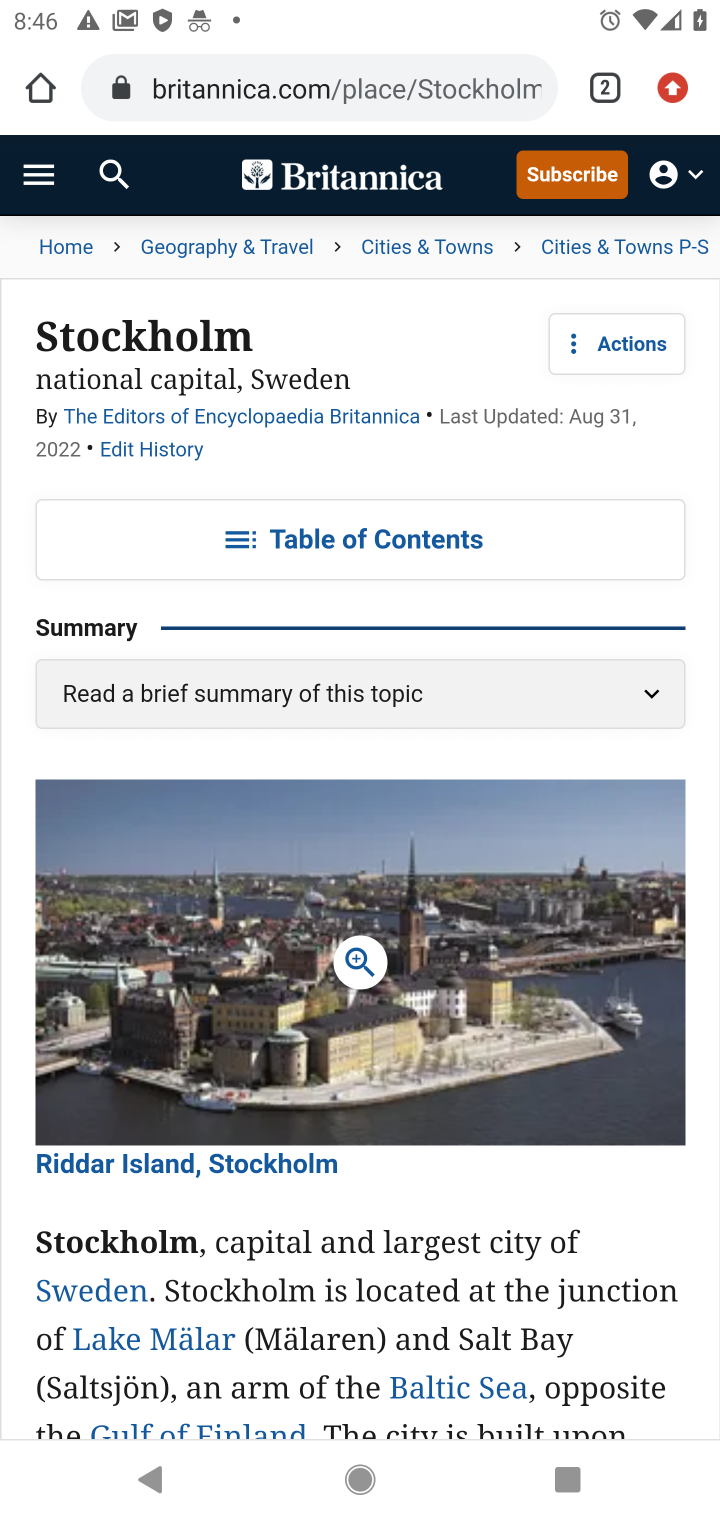
Step 59: drag from (372, 951) to (382, 352)
Your task to perform on an android device: What is the capital of Sweden? Image 60: 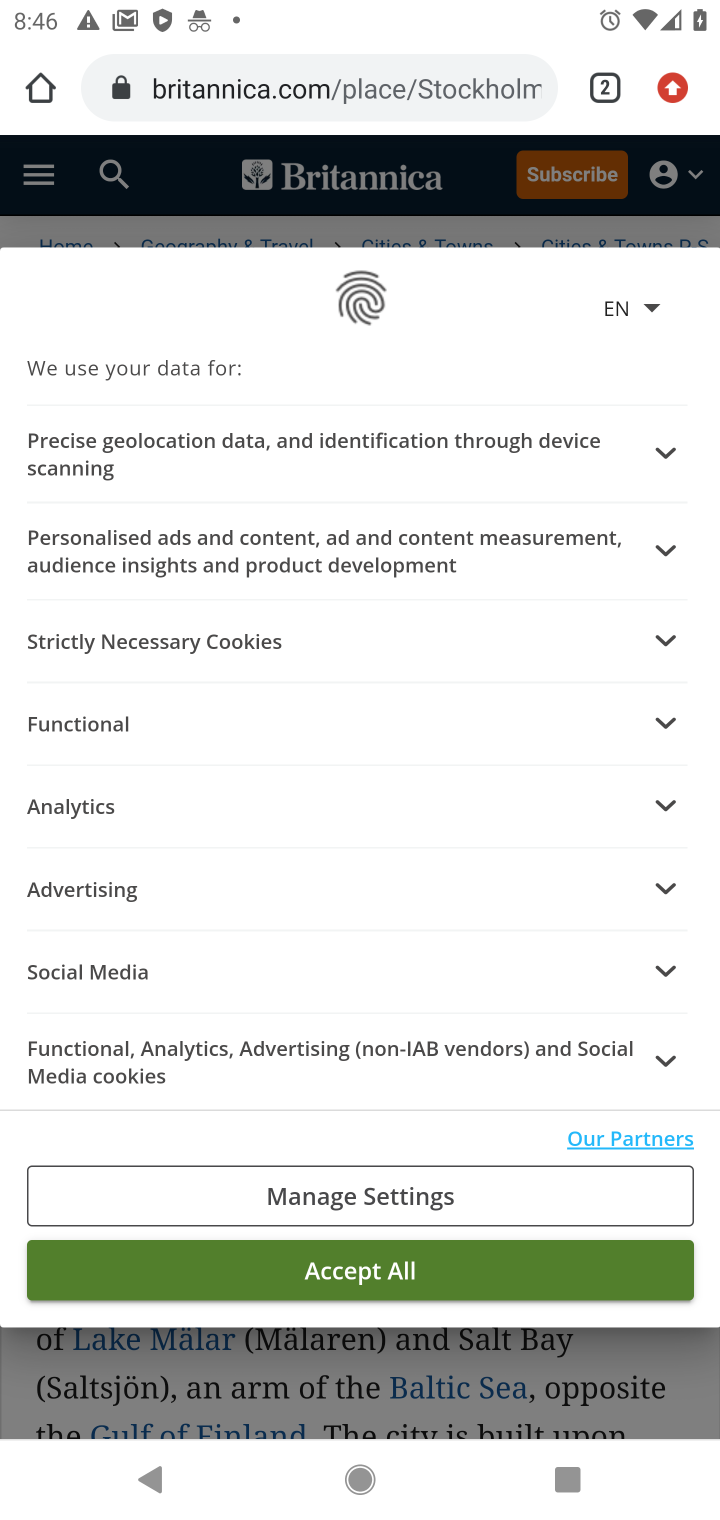
Step 60: click (380, 1272)
Your task to perform on an android device: What is the capital of Sweden? Image 61: 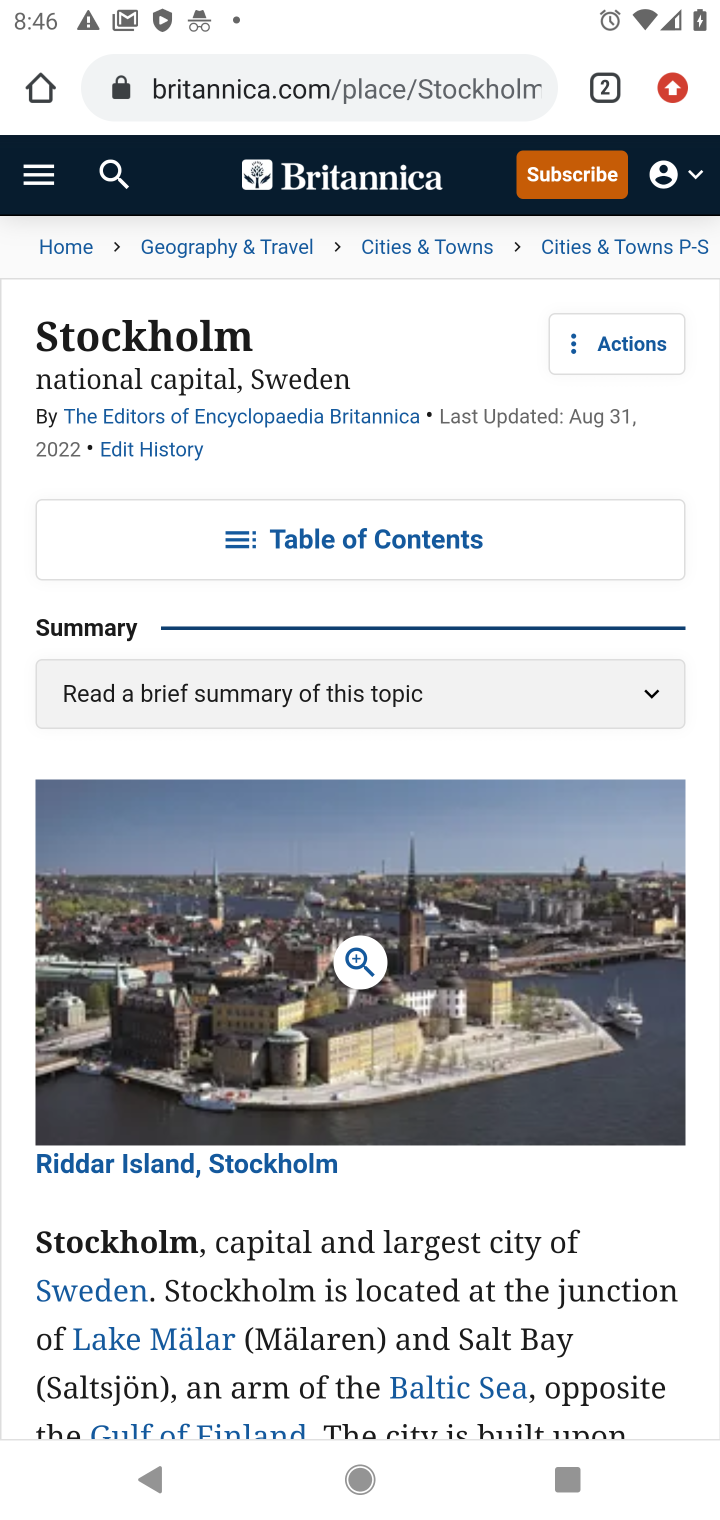
Step 61: task complete